Your task to perform on an android device: Empty the shopping cart on bestbuy. Add logitech g pro to the cart on bestbuy, then select checkout. Image 0: 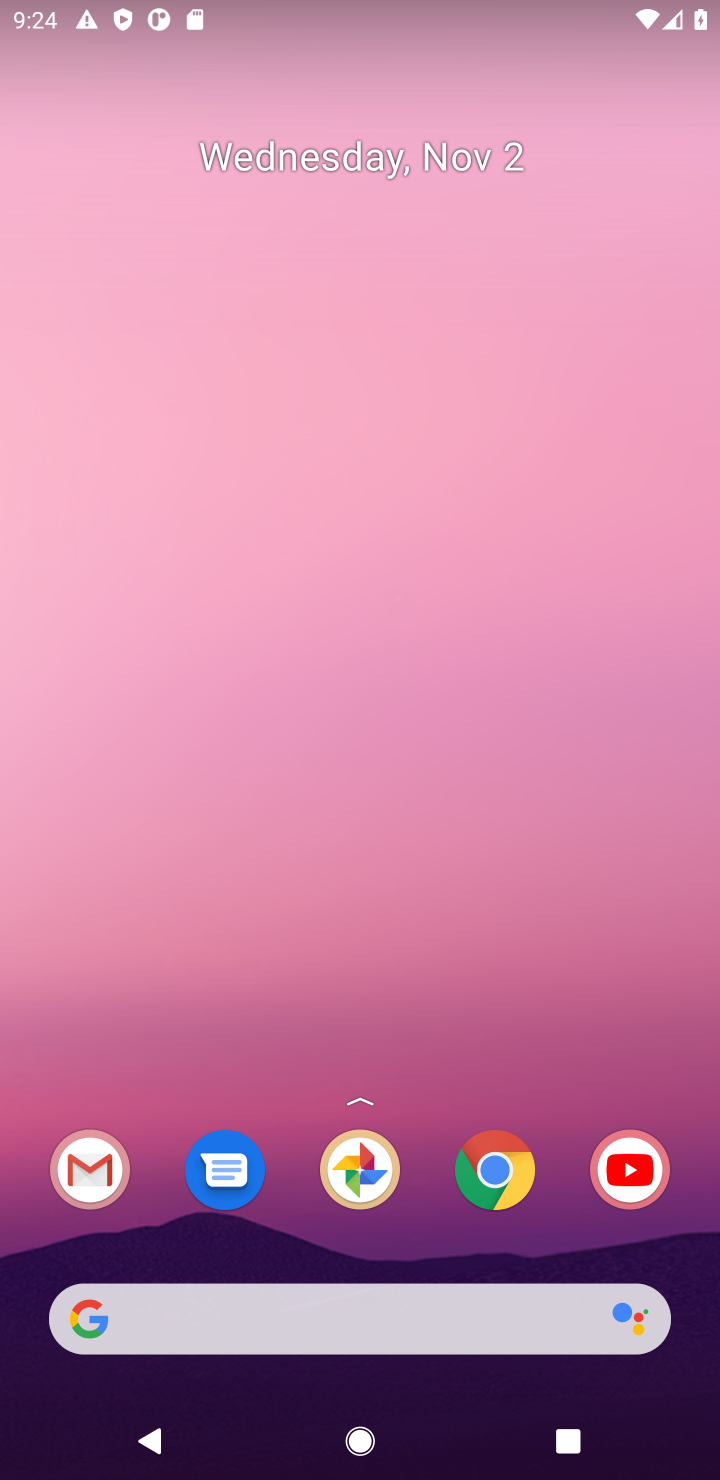
Step 0: click (521, 1170)
Your task to perform on an android device: Empty the shopping cart on bestbuy. Add logitech g pro to the cart on bestbuy, then select checkout. Image 1: 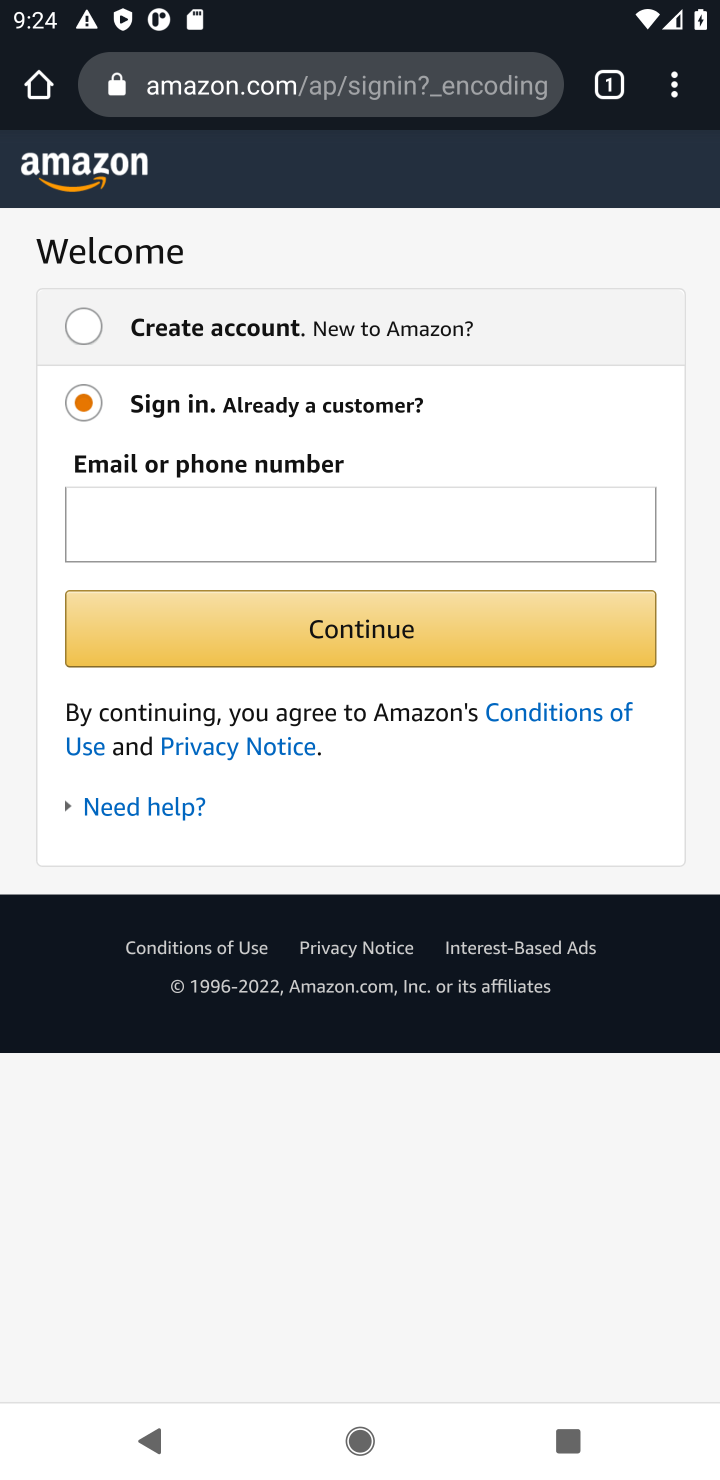
Step 1: press home button
Your task to perform on an android device: Empty the shopping cart on bestbuy. Add logitech g pro to the cart on bestbuy, then select checkout. Image 2: 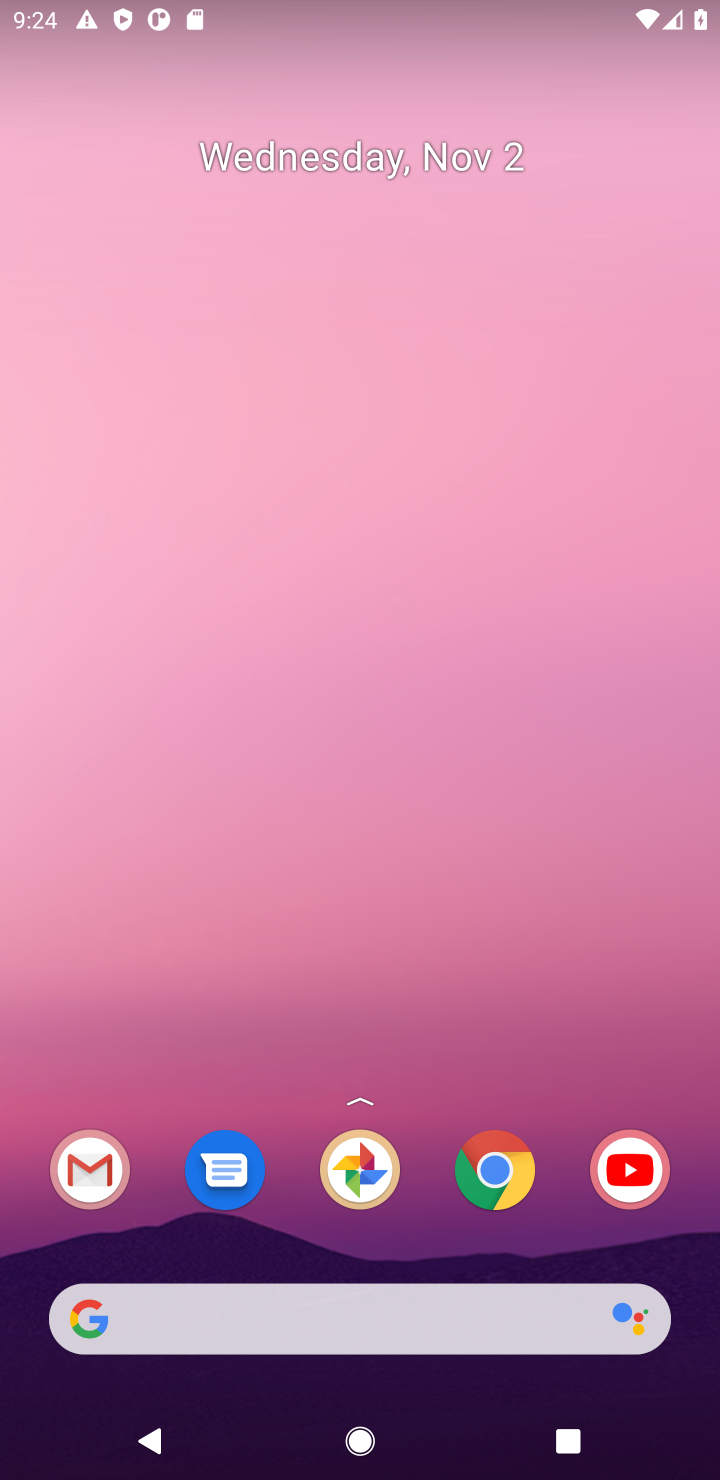
Step 2: click (483, 1197)
Your task to perform on an android device: Empty the shopping cart on bestbuy. Add logitech g pro to the cart on bestbuy, then select checkout. Image 3: 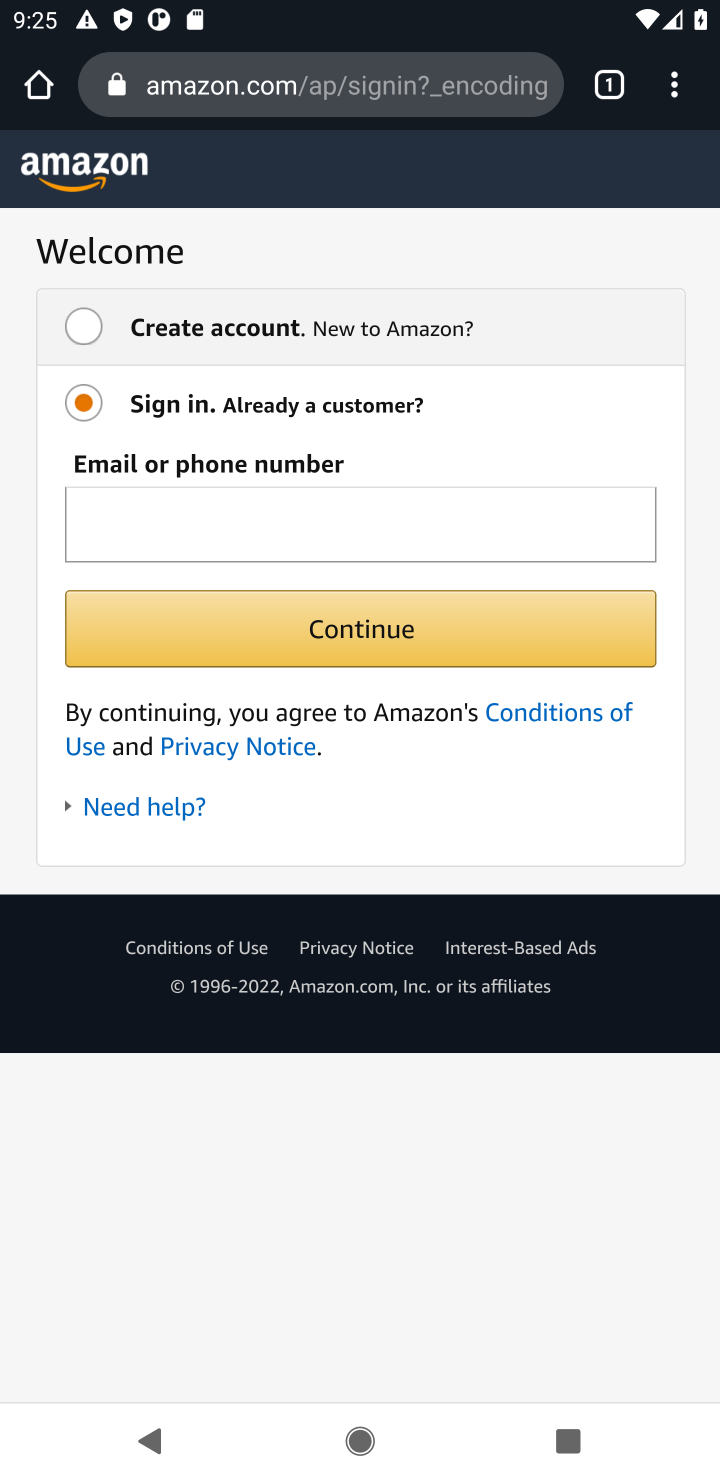
Step 3: click (258, 88)
Your task to perform on an android device: Empty the shopping cart on bestbuy. Add logitech g pro to the cart on bestbuy, then select checkout. Image 4: 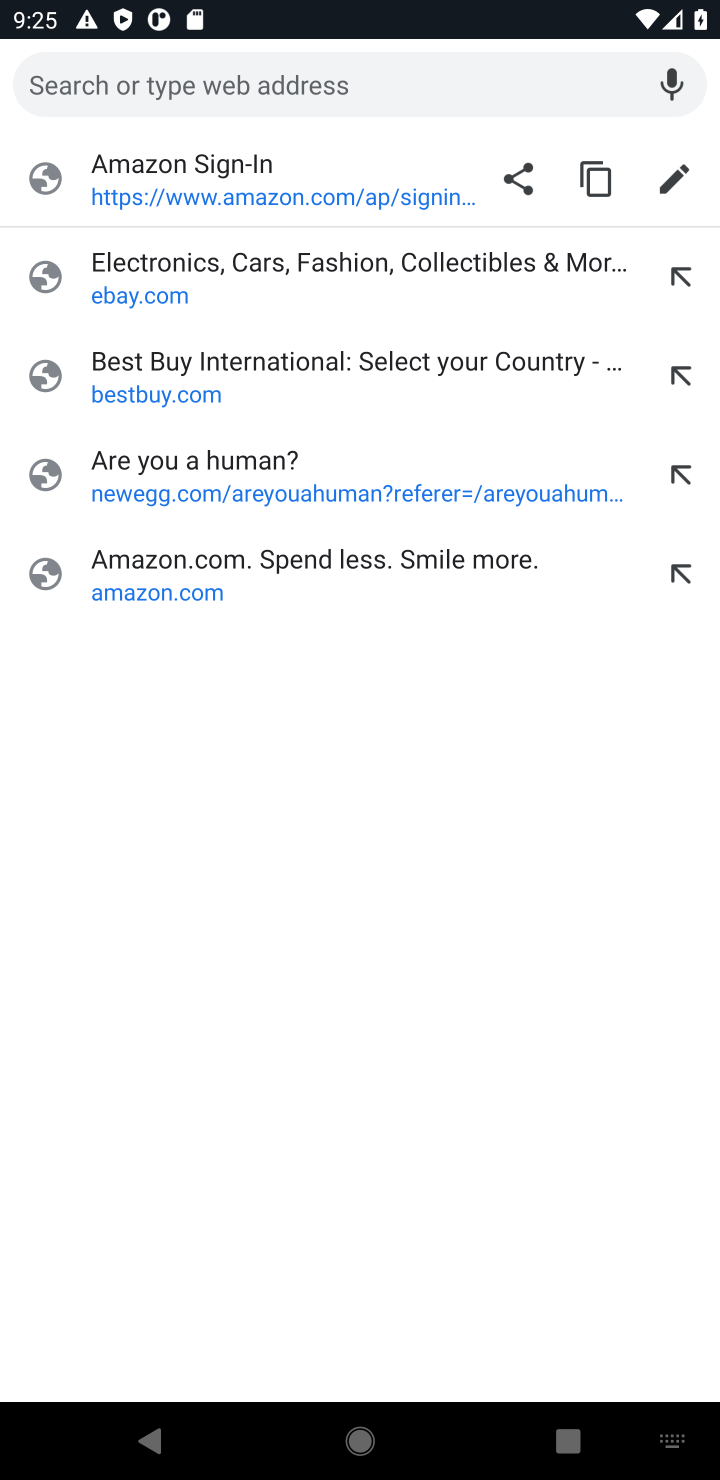
Step 4: type "bestbuy"
Your task to perform on an android device: Empty the shopping cart on bestbuy. Add logitech g pro to the cart on bestbuy, then select checkout. Image 5: 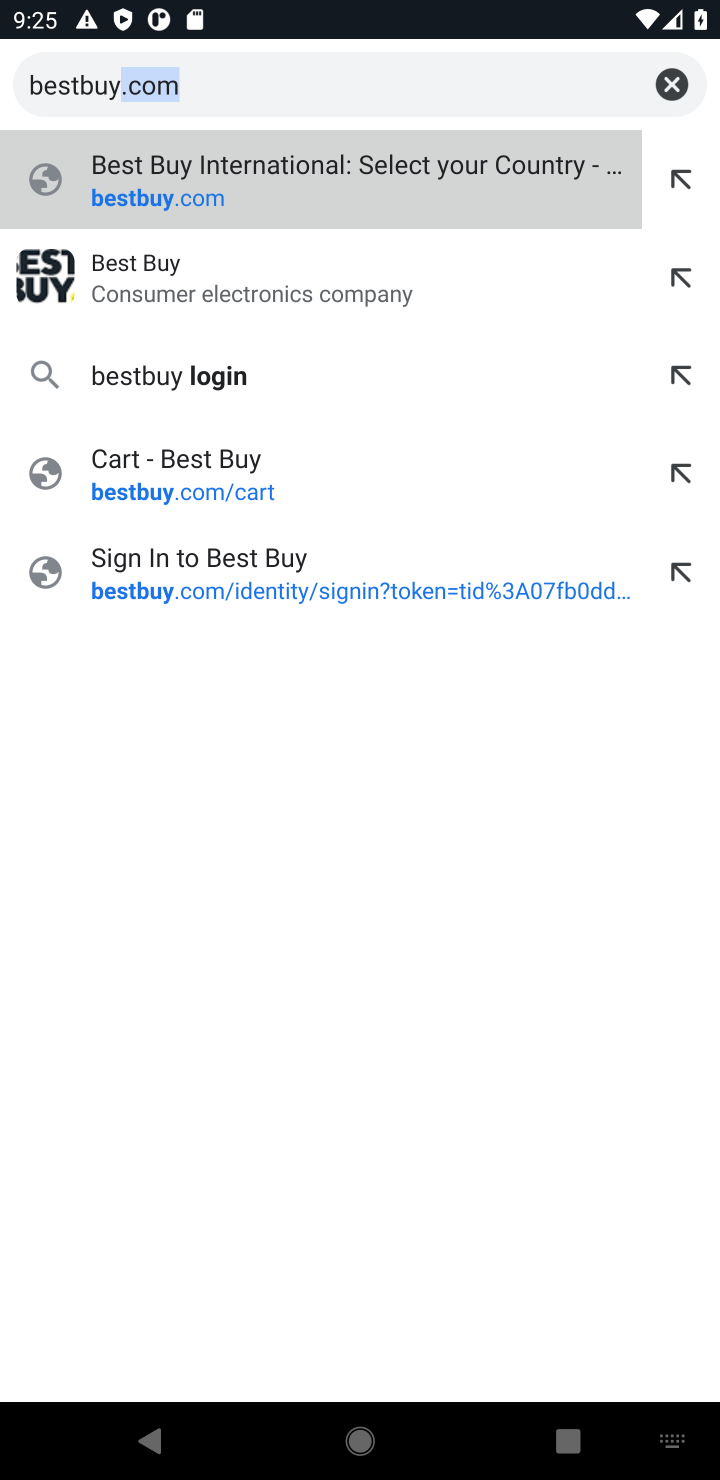
Step 5: press enter
Your task to perform on an android device: Empty the shopping cart on bestbuy. Add logitech g pro to the cart on bestbuy, then select checkout. Image 6: 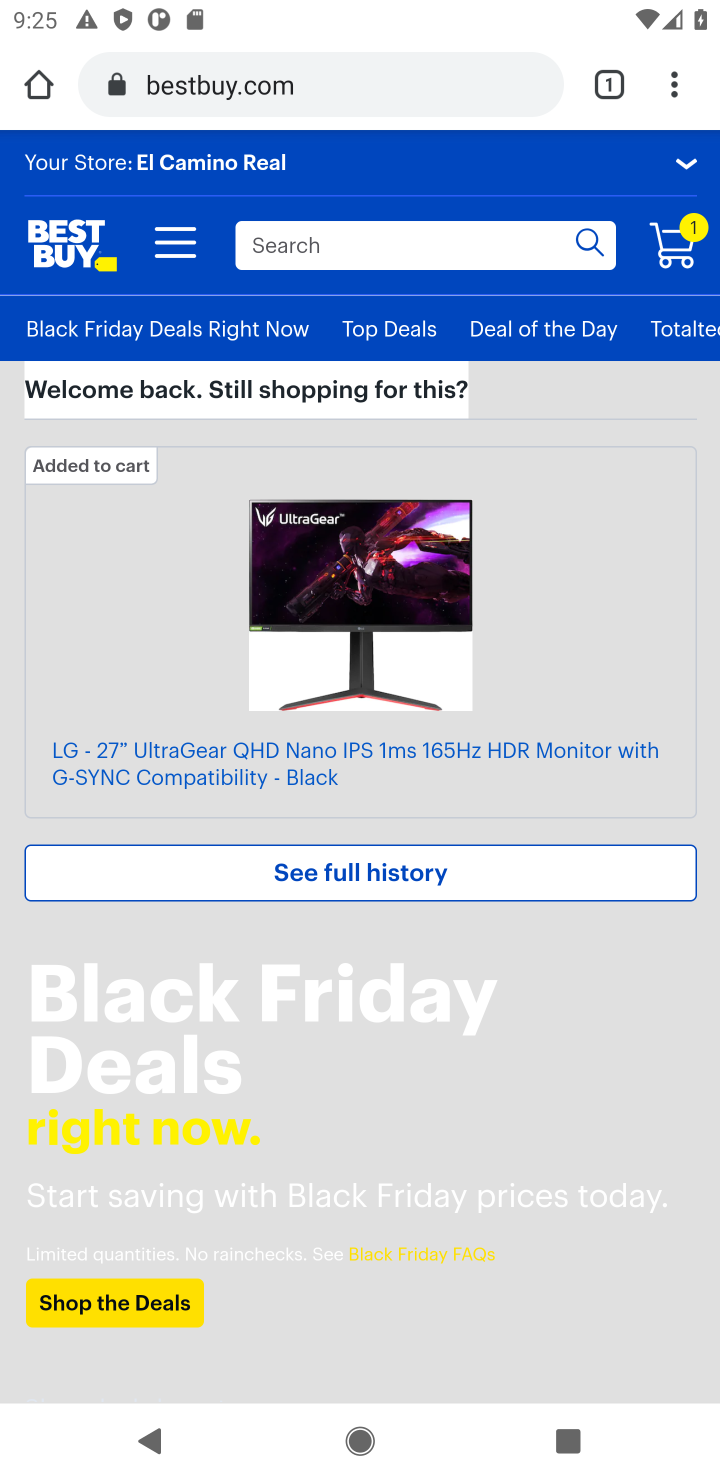
Step 6: click (445, 256)
Your task to perform on an android device: Empty the shopping cart on bestbuy. Add logitech g pro to the cart on bestbuy, then select checkout. Image 7: 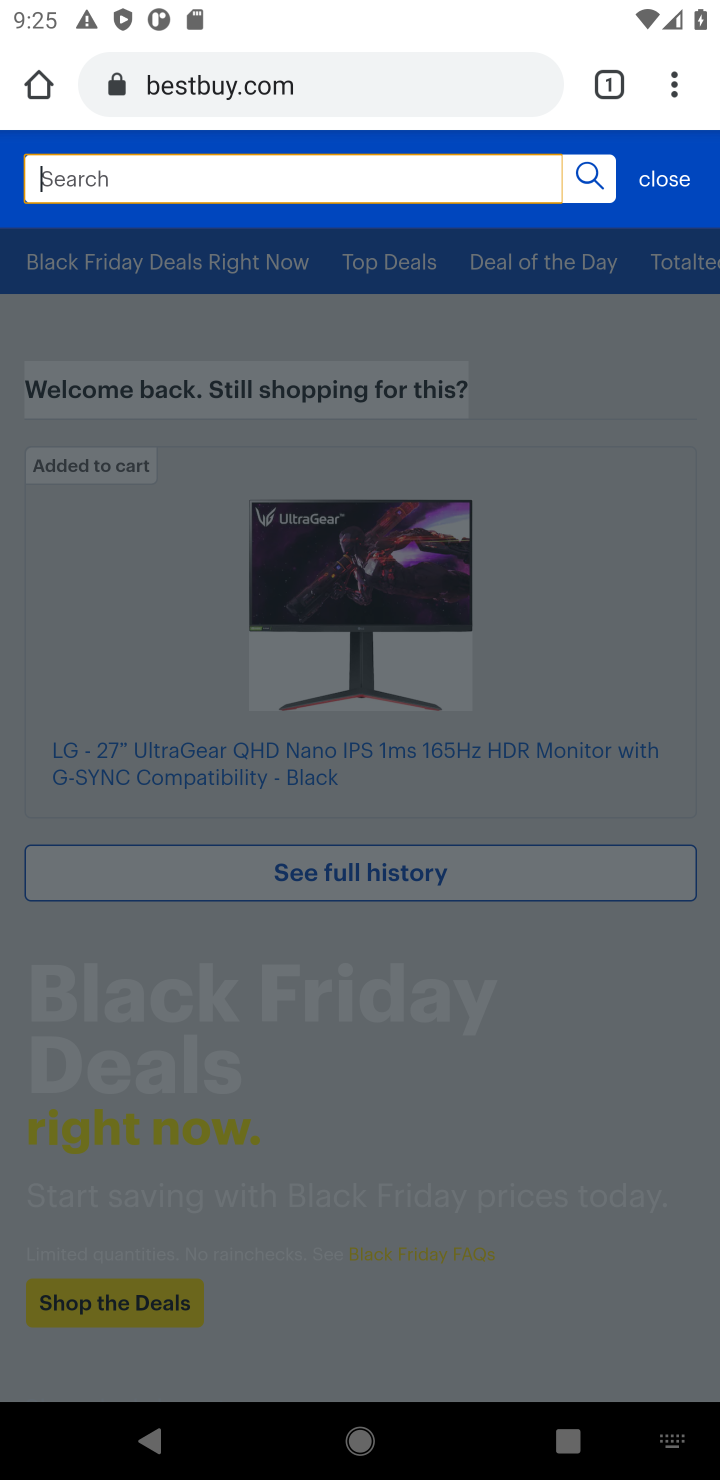
Step 7: click (675, 191)
Your task to perform on an android device: Empty the shopping cart on bestbuy. Add logitech g pro to the cart on bestbuy, then select checkout. Image 8: 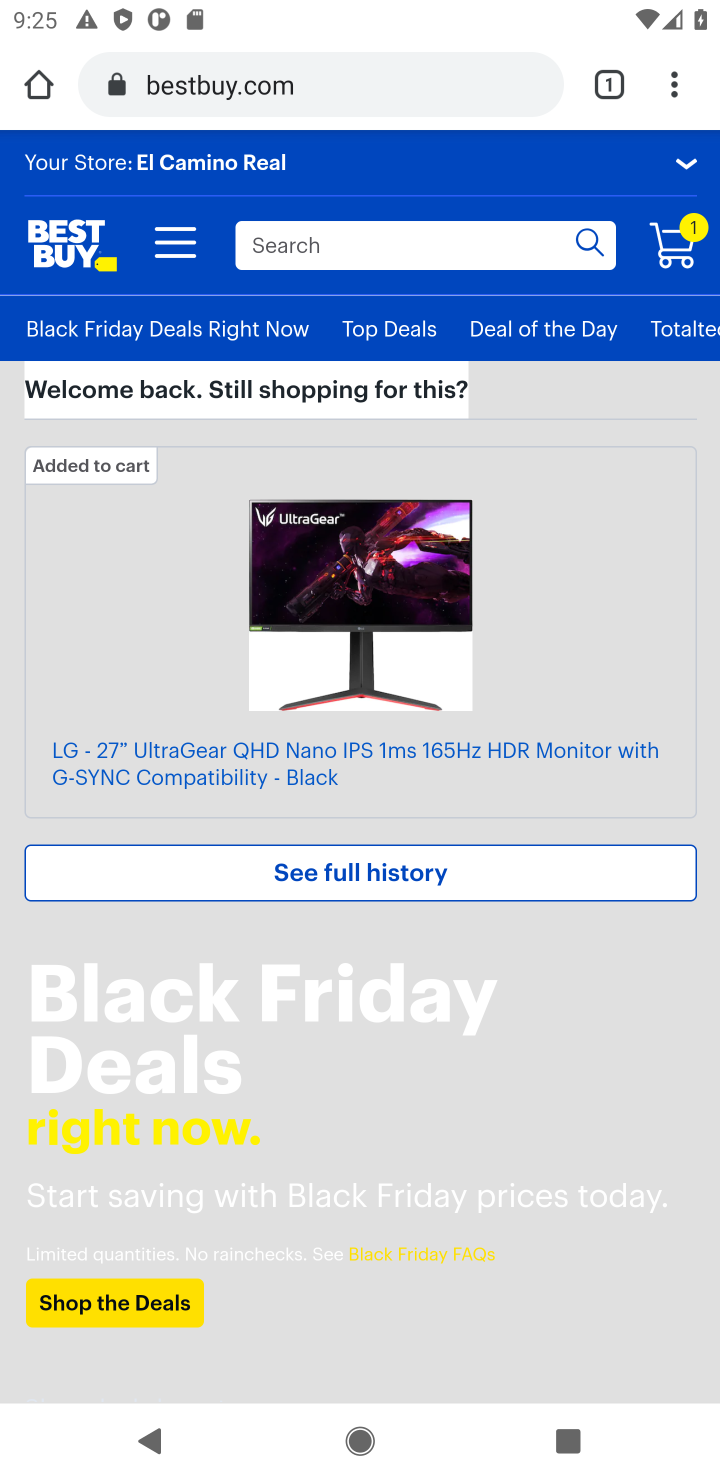
Step 8: click (679, 252)
Your task to perform on an android device: Empty the shopping cart on bestbuy. Add logitech g pro to the cart on bestbuy, then select checkout. Image 9: 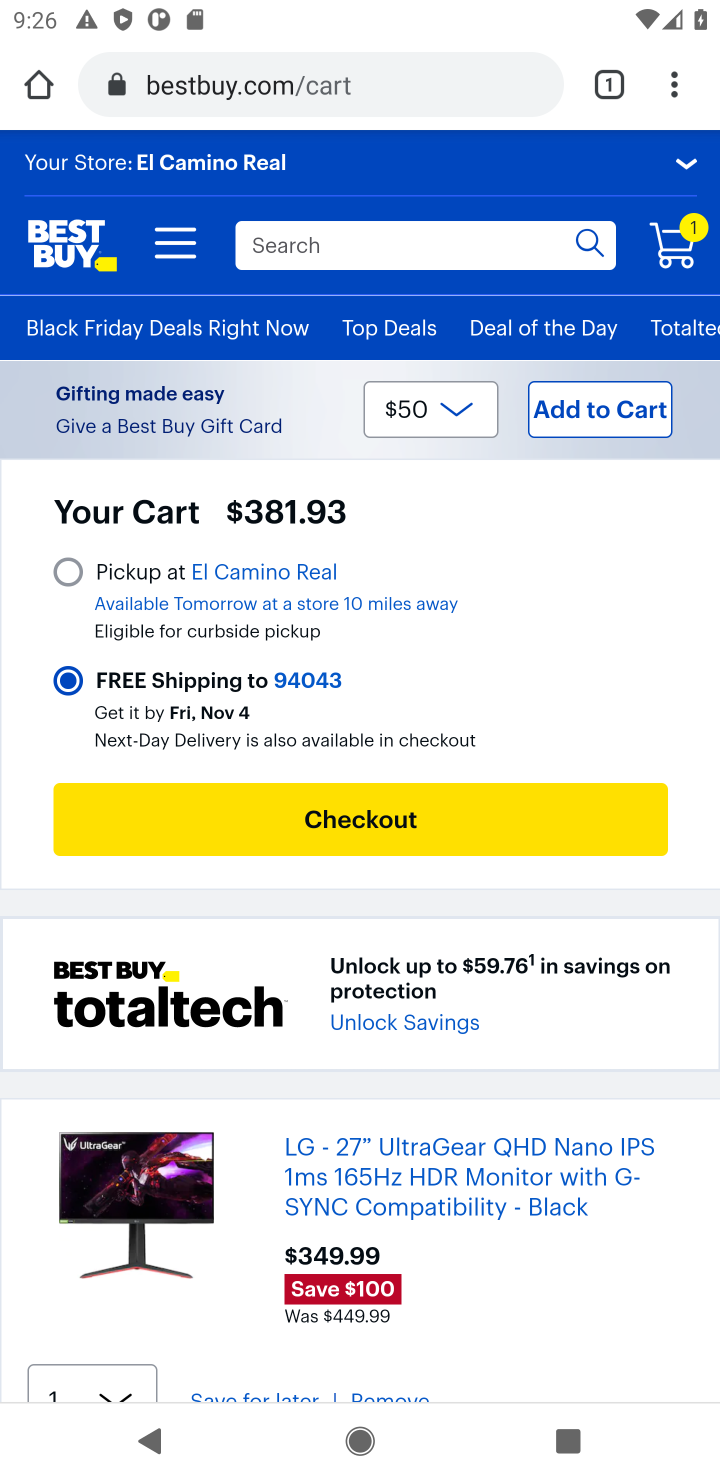
Step 9: drag from (288, 1215) to (296, 688)
Your task to perform on an android device: Empty the shopping cart on bestbuy. Add logitech g pro to the cart on bestbuy, then select checkout. Image 10: 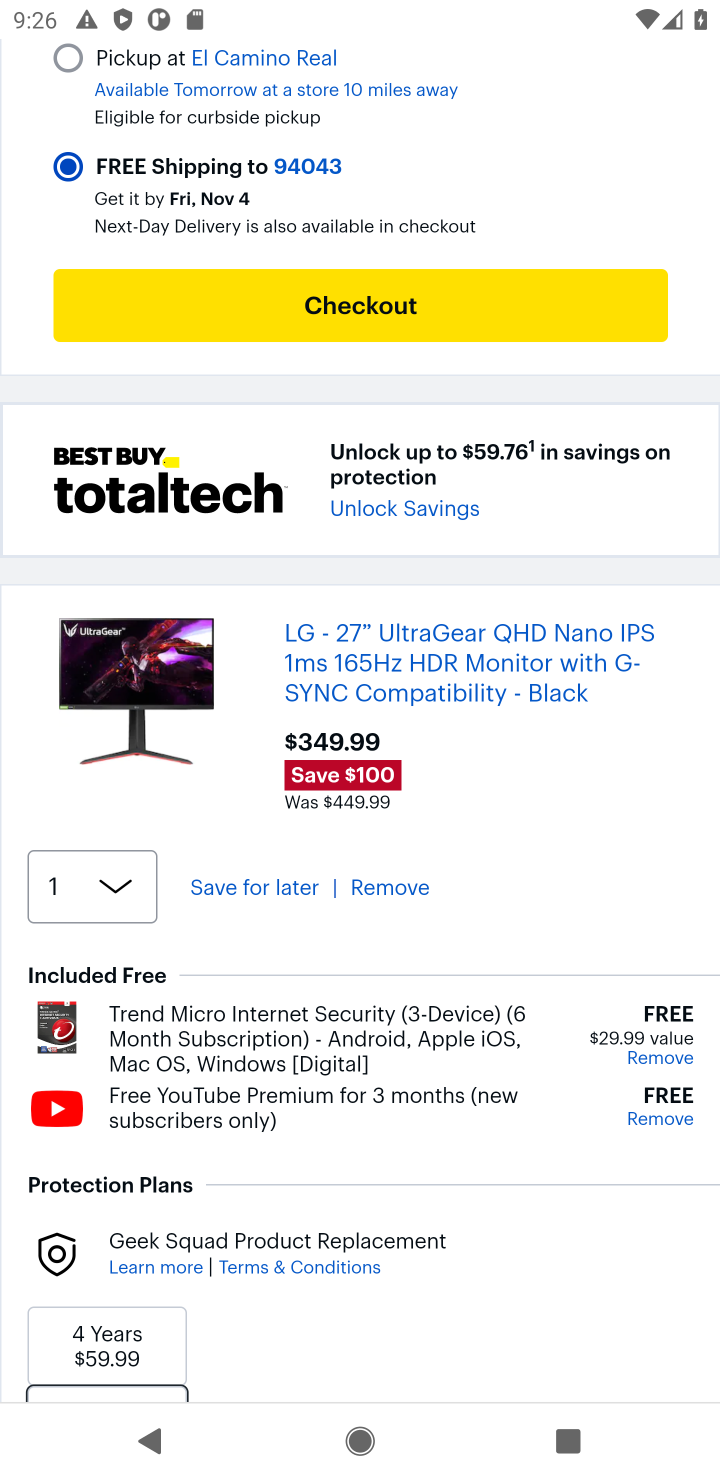
Step 10: click (395, 886)
Your task to perform on an android device: Empty the shopping cart on bestbuy. Add logitech g pro to the cart on bestbuy, then select checkout. Image 11: 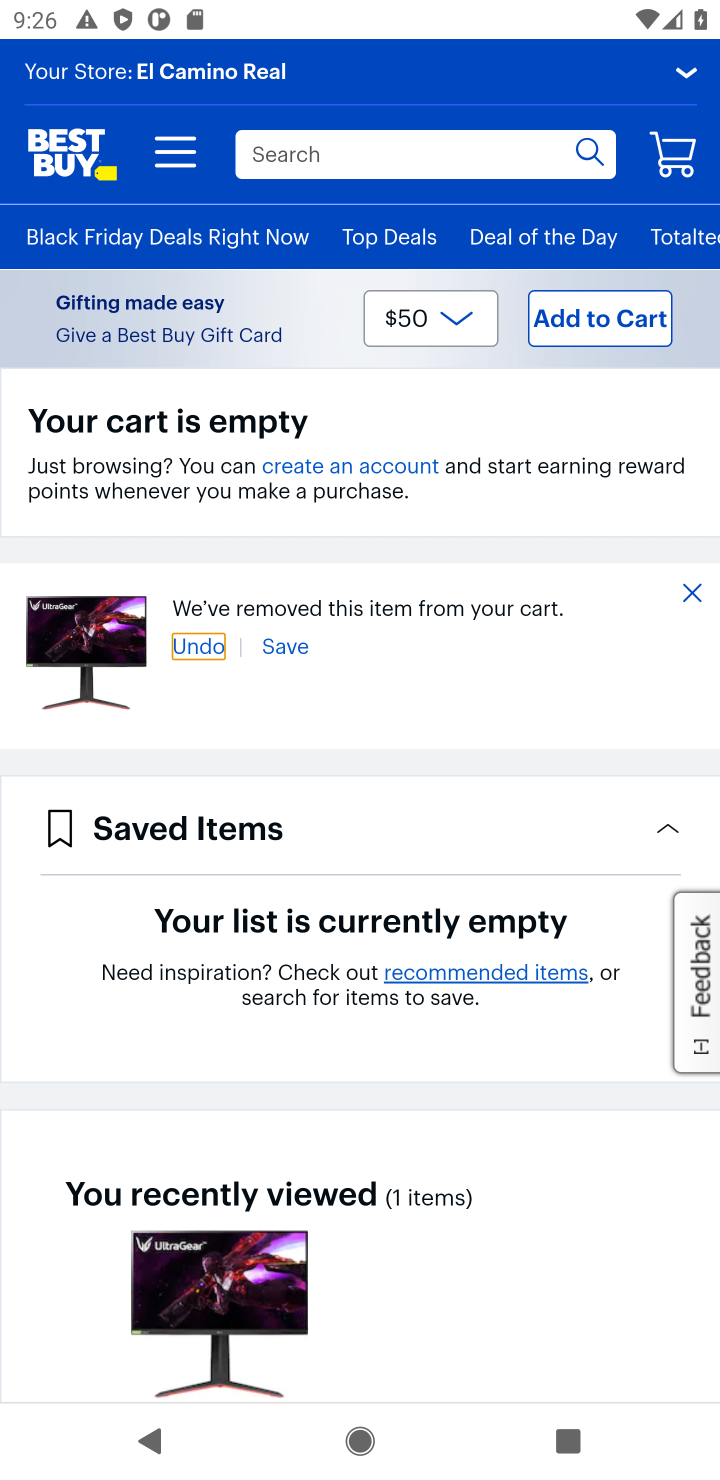
Step 11: click (494, 1202)
Your task to perform on an android device: Empty the shopping cart on bestbuy. Add logitech g pro to the cart on bestbuy, then select checkout. Image 12: 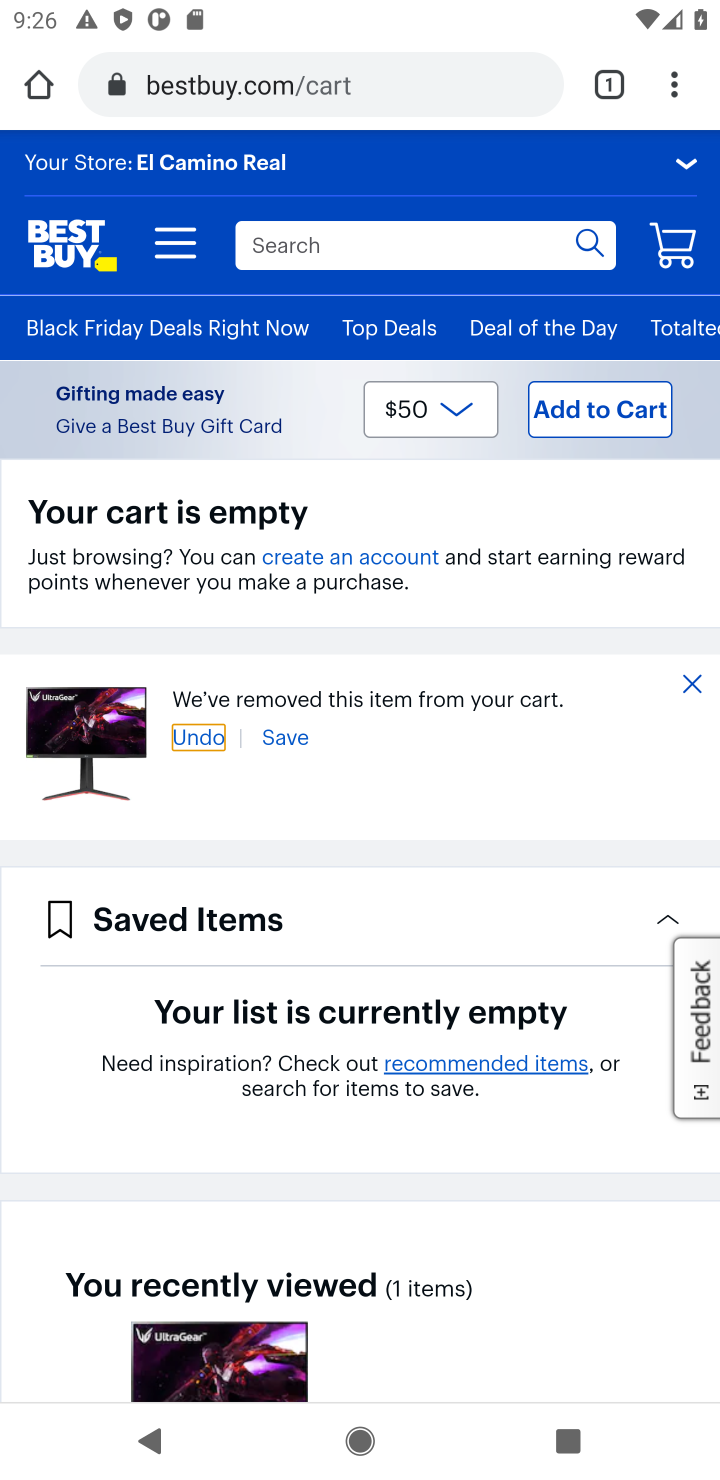
Step 12: drag from (231, 1027) to (314, 536)
Your task to perform on an android device: Empty the shopping cart on bestbuy. Add logitech g pro to the cart on bestbuy, then select checkout. Image 13: 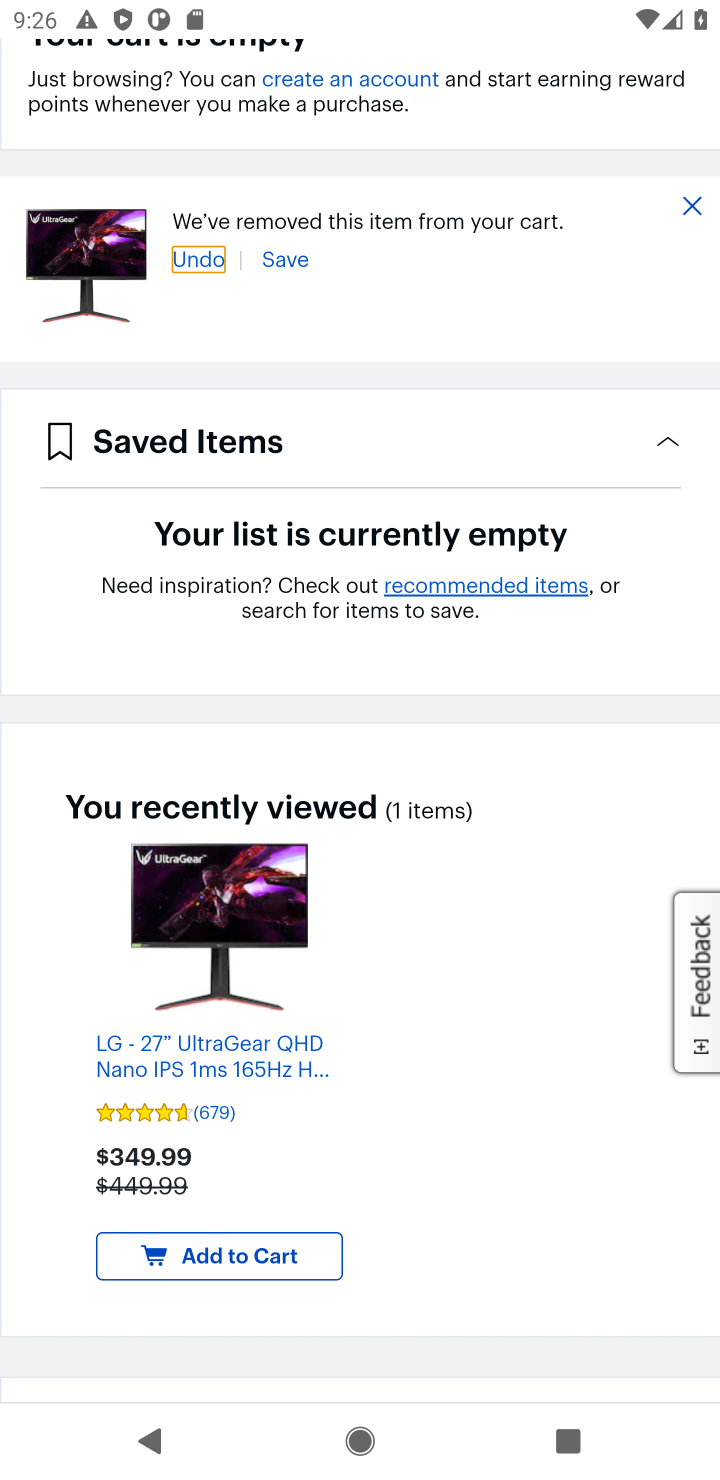
Step 13: drag from (512, 717) to (532, 1044)
Your task to perform on an android device: Empty the shopping cart on bestbuy. Add logitech g pro to the cart on bestbuy, then select checkout. Image 14: 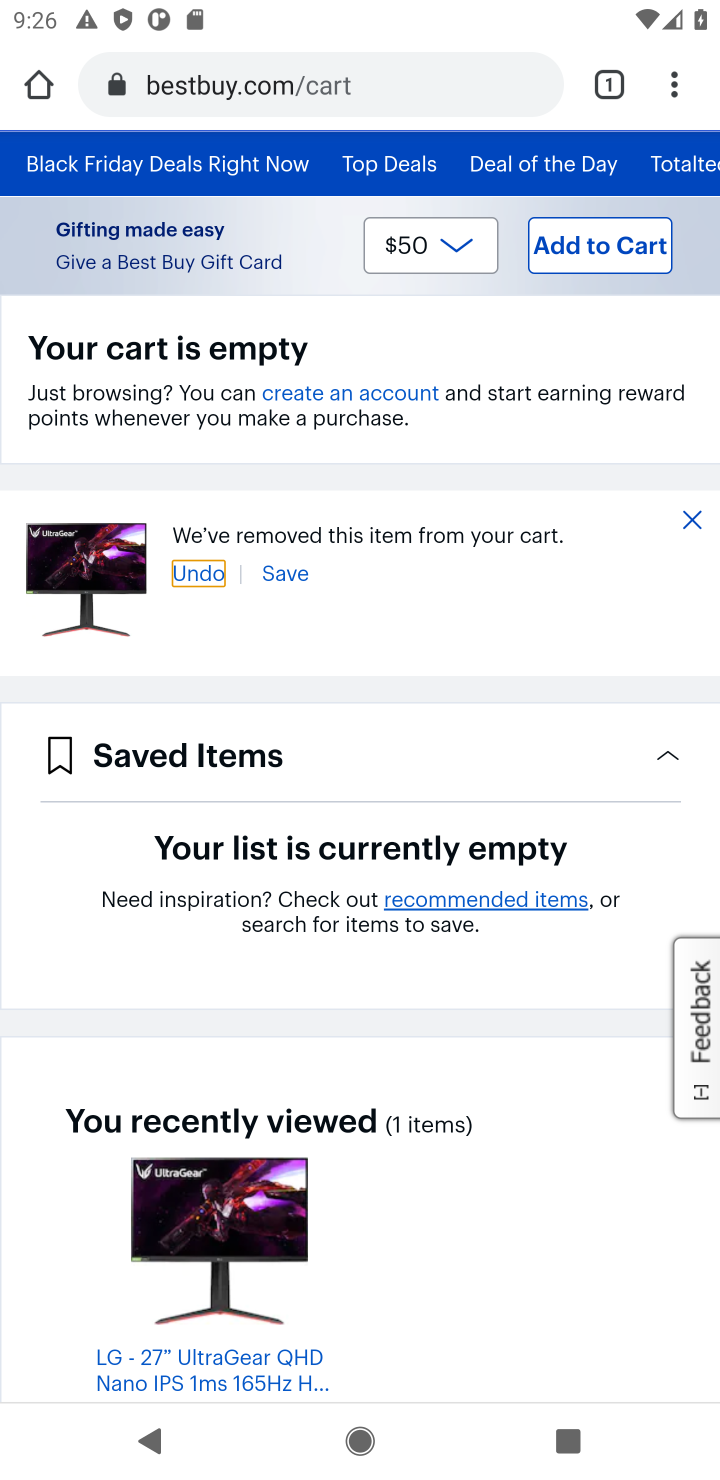
Step 14: drag from (461, 466) to (593, 225)
Your task to perform on an android device: Empty the shopping cart on bestbuy. Add logitech g pro to the cart on bestbuy, then select checkout. Image 15: 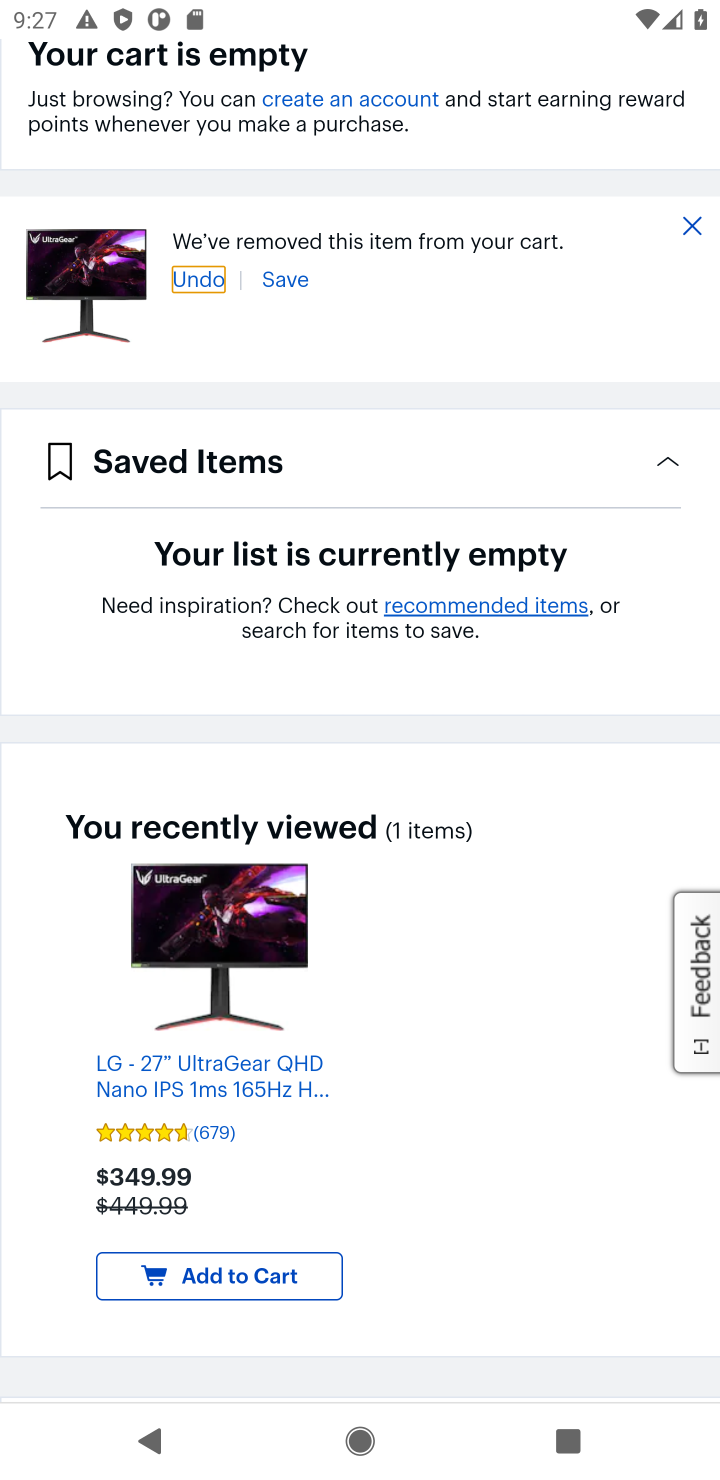
Step 15: drag from (483, 359) to (474, 883)
Your task to perform on an android device: Empty the shopping cart on bestbuy. Add logitech g pro to the cart on bestbuy, then select checkout. Image 16: 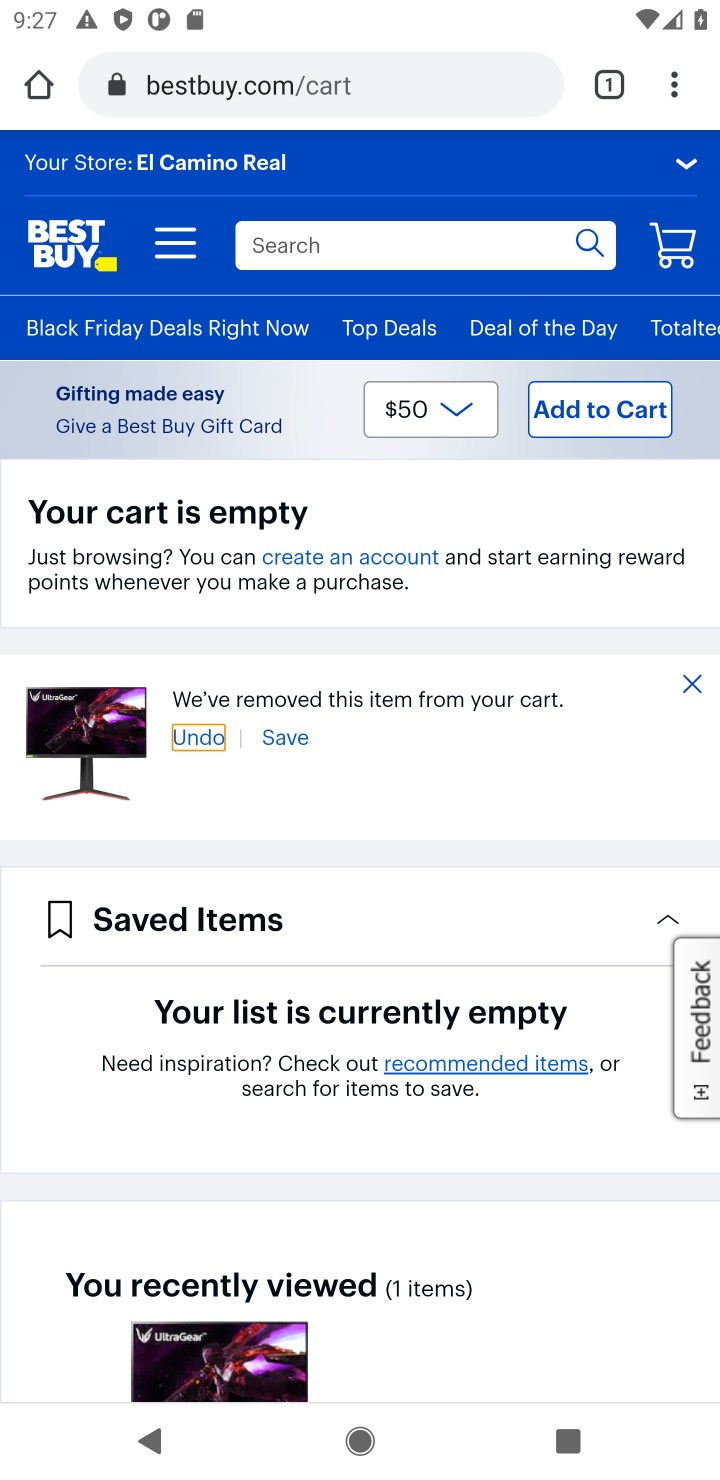
Step 16: click (382, 95)
Your task to perform on an android device: Empty the shopping cart on bestbuy. Add logitech g pro to the cart on bestbuy, then select checkout. Image 17: 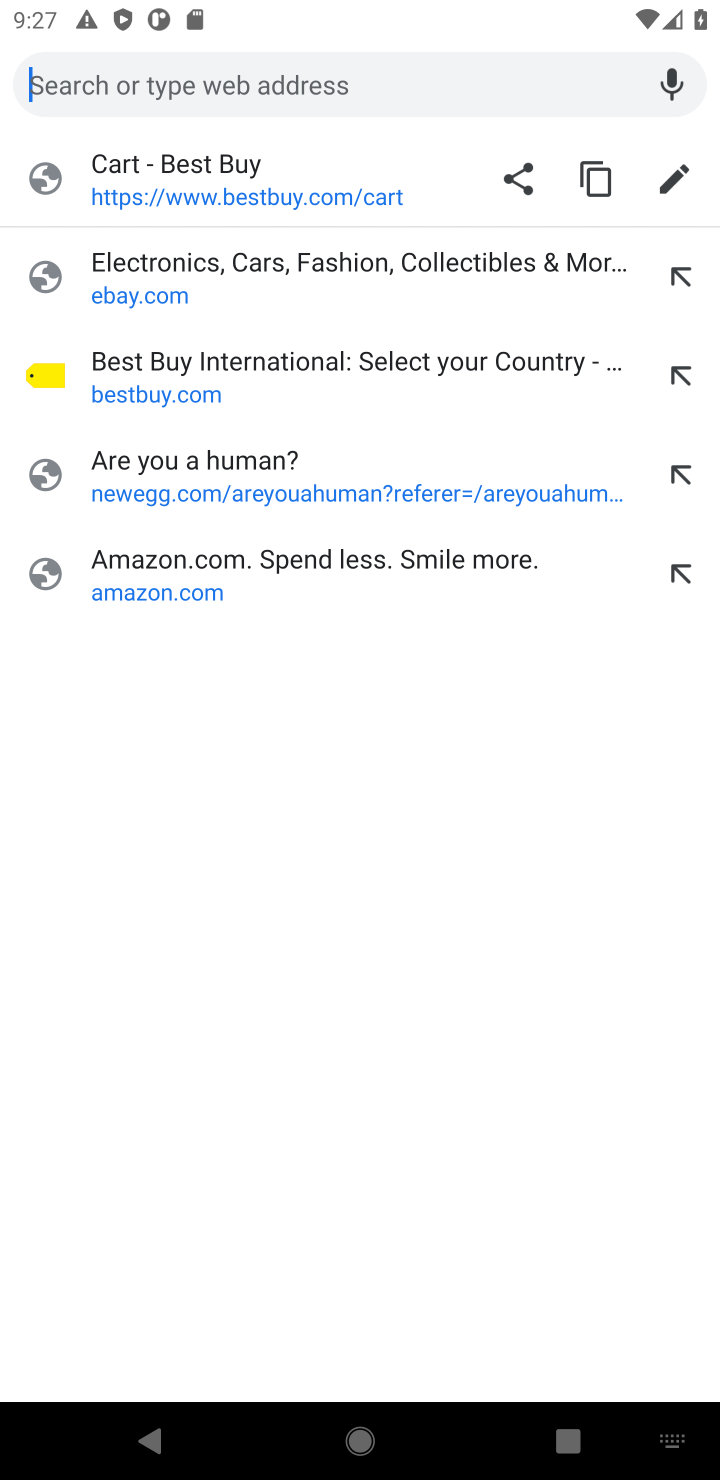
Step 17: type "logitech g pro"
Your task to perform on an android device: Empty the shopping cart on bestbuy. Add logitech g pro to the cart on bestbuy, then select checkout. Image 18: 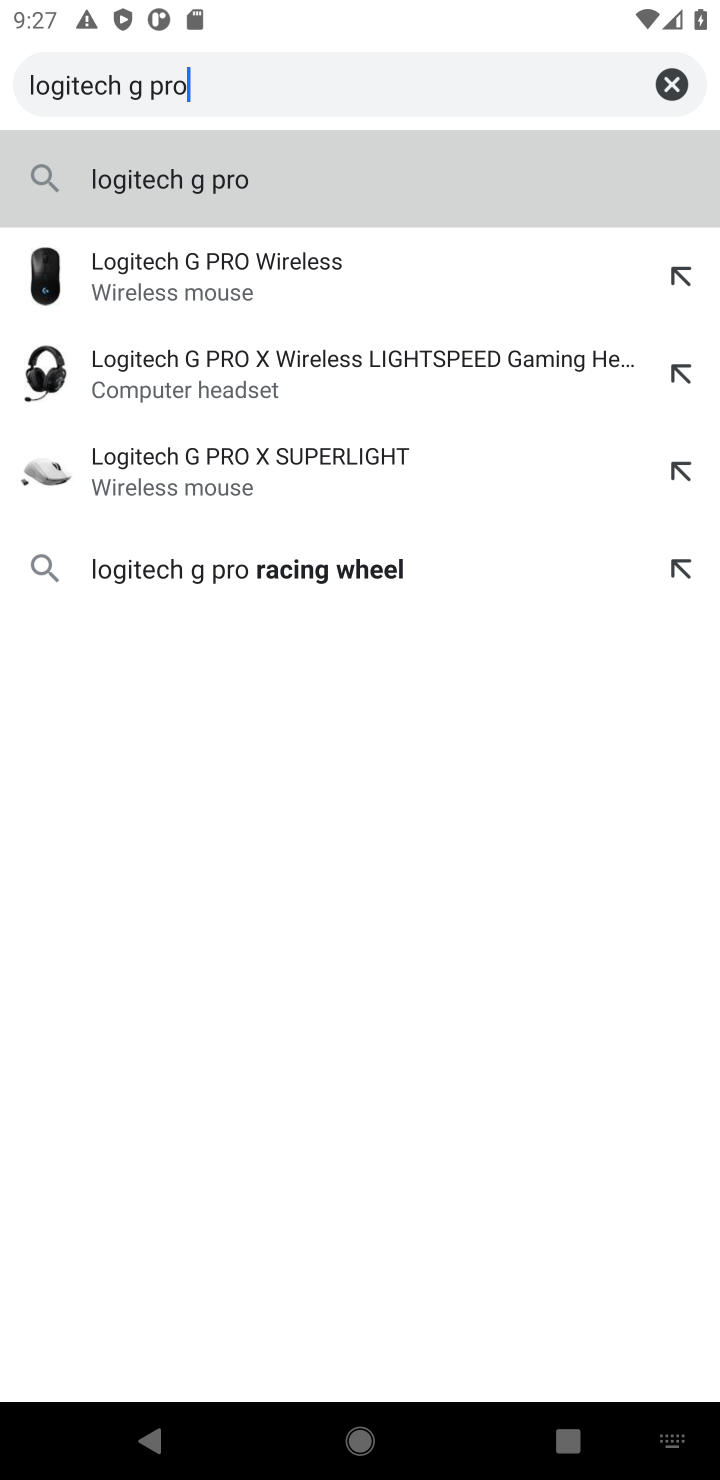
Step 18: click (674, 73)
Your task to perform on an android device: Empty the shopping cart on bestbuy. Add logitech g pro to the cart on bestbuy, then select checkout. Image 19: 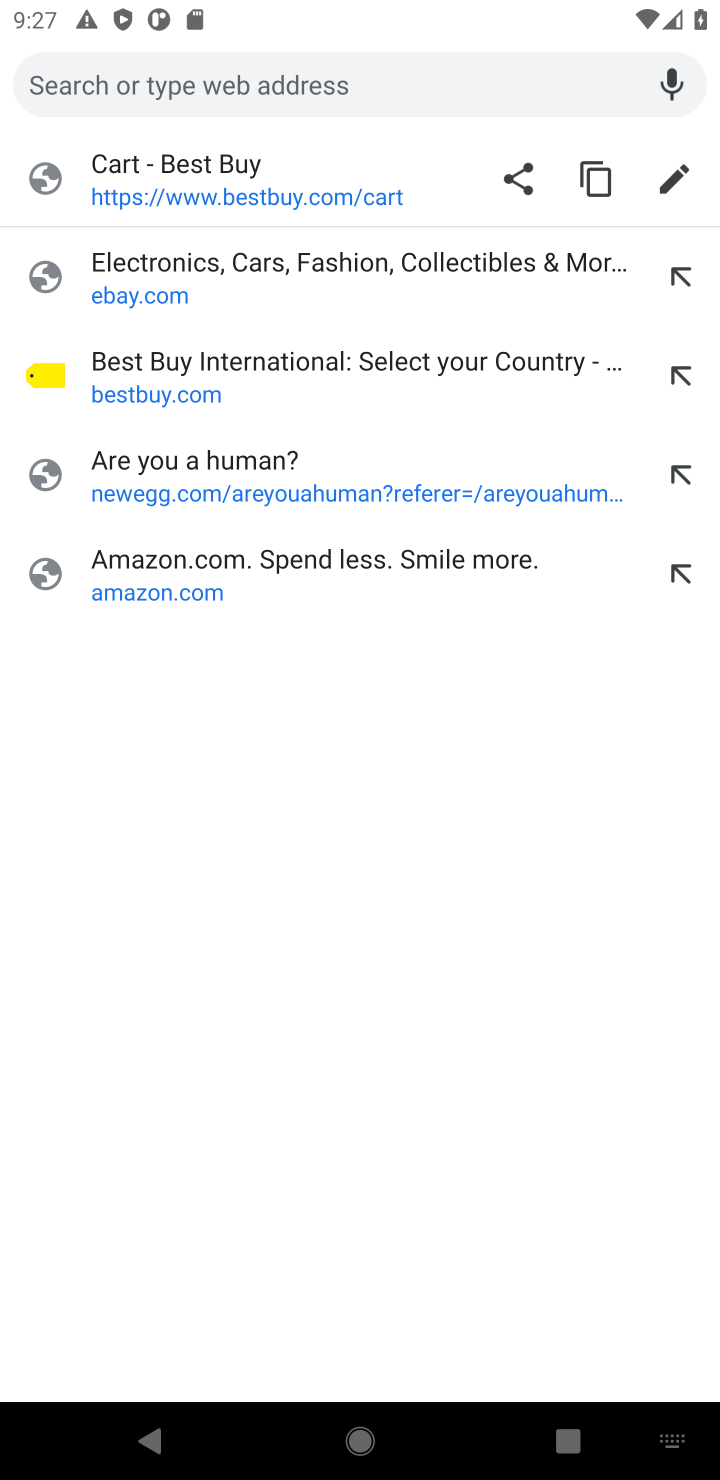
Step 19: type "bestbuy"
Your task to perform on an android device: Empty the shopping cart on bestbuy. Add logitech g pro to the cart on bestbuy, then select checkout. Image 20: 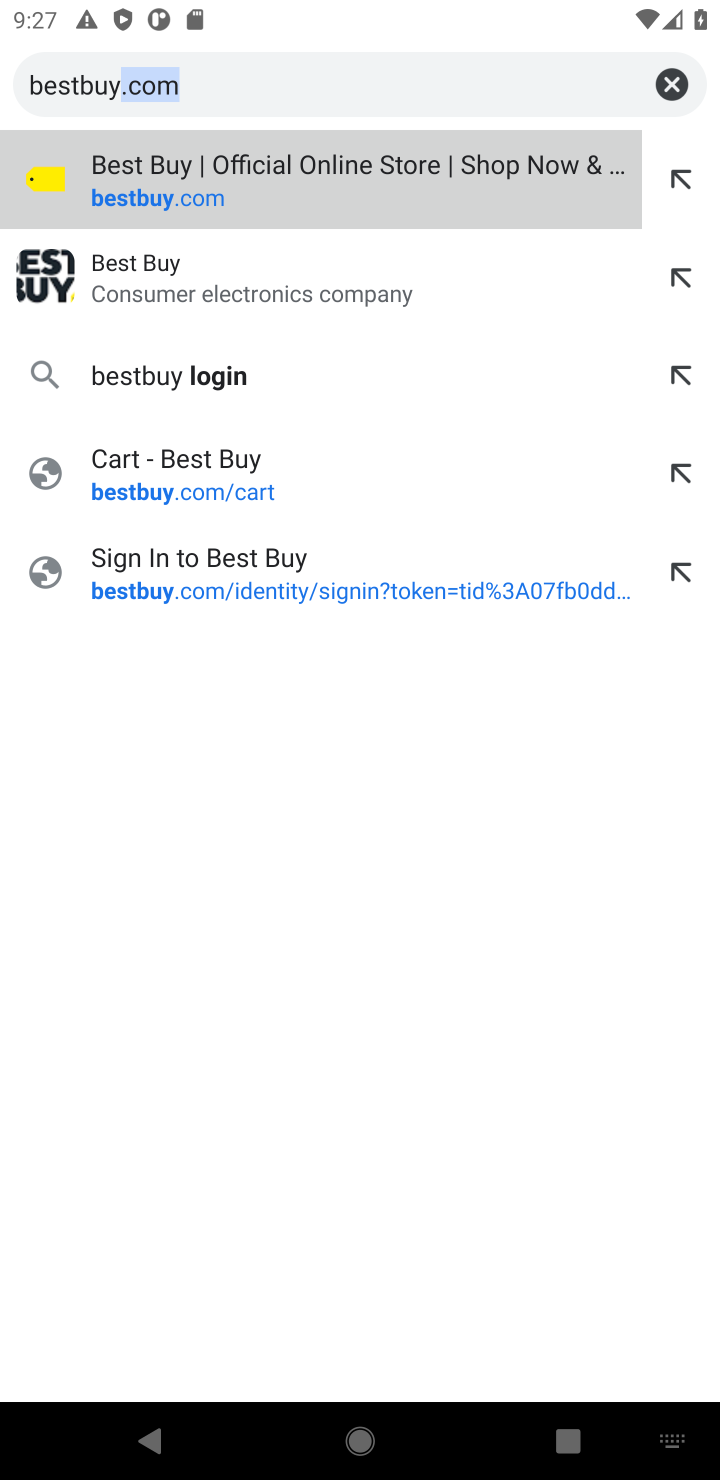
Step 20: type ""
Your task to perform on an android device: Empty the shopping cart on bestbuy. Add logitech g pro to the cart on bestbuy, then select checkout. Image 21: 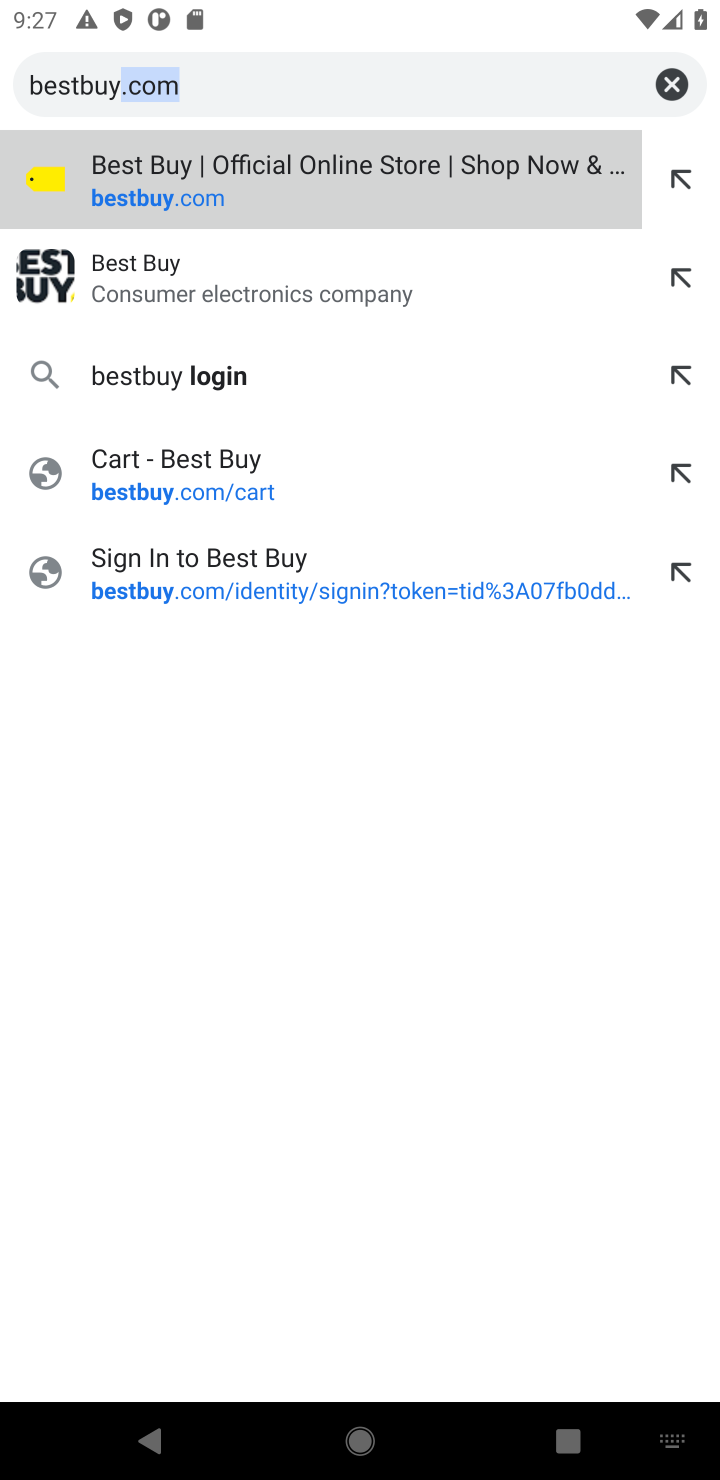
Step 21: press enter
Your task to perform on an android device: Empty the shopping cart on bestbuy. Add logitech g pro to the cart on bestbuy, then select checkout. Image 22: 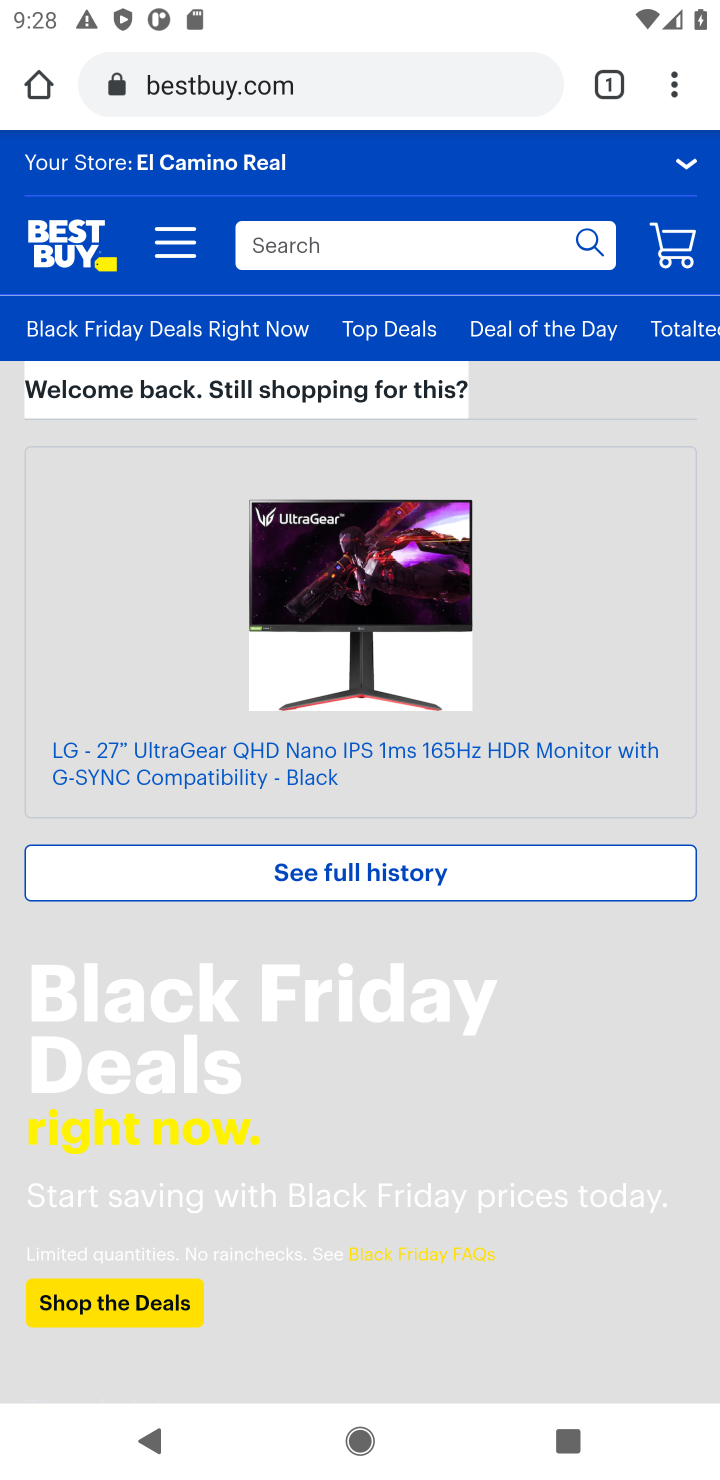
Step 22: click (338, 251)
Your task to perform on an android device: Empty the shopping cart on bestbuy. Add logitech g pro to the cart on bestbuy, then select checkout. Image 23: 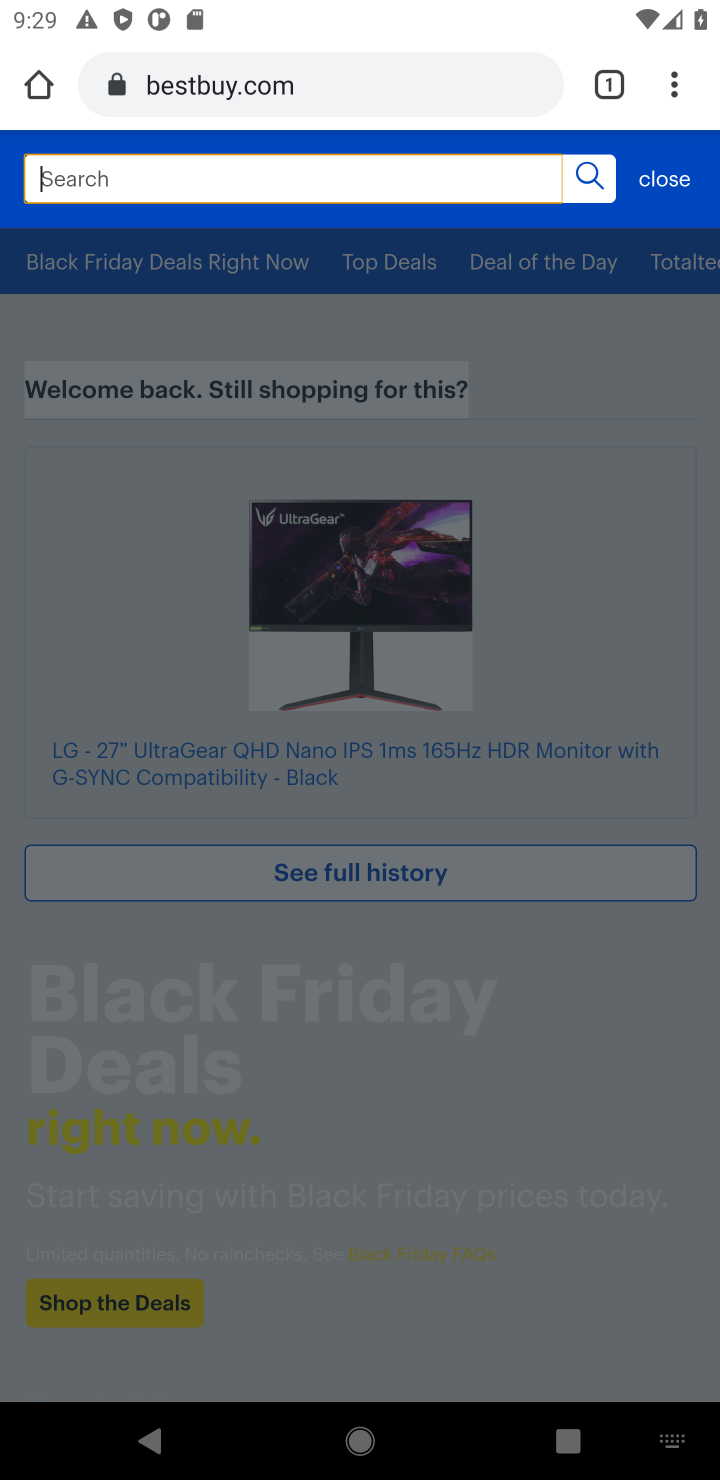
Step 23: type "logitech g pro"
Your task to perform on an android device: Empty the shopping cart on bestbuy. Add logitech g pro to the cart on bestbuy, then select checkout. Image 24: 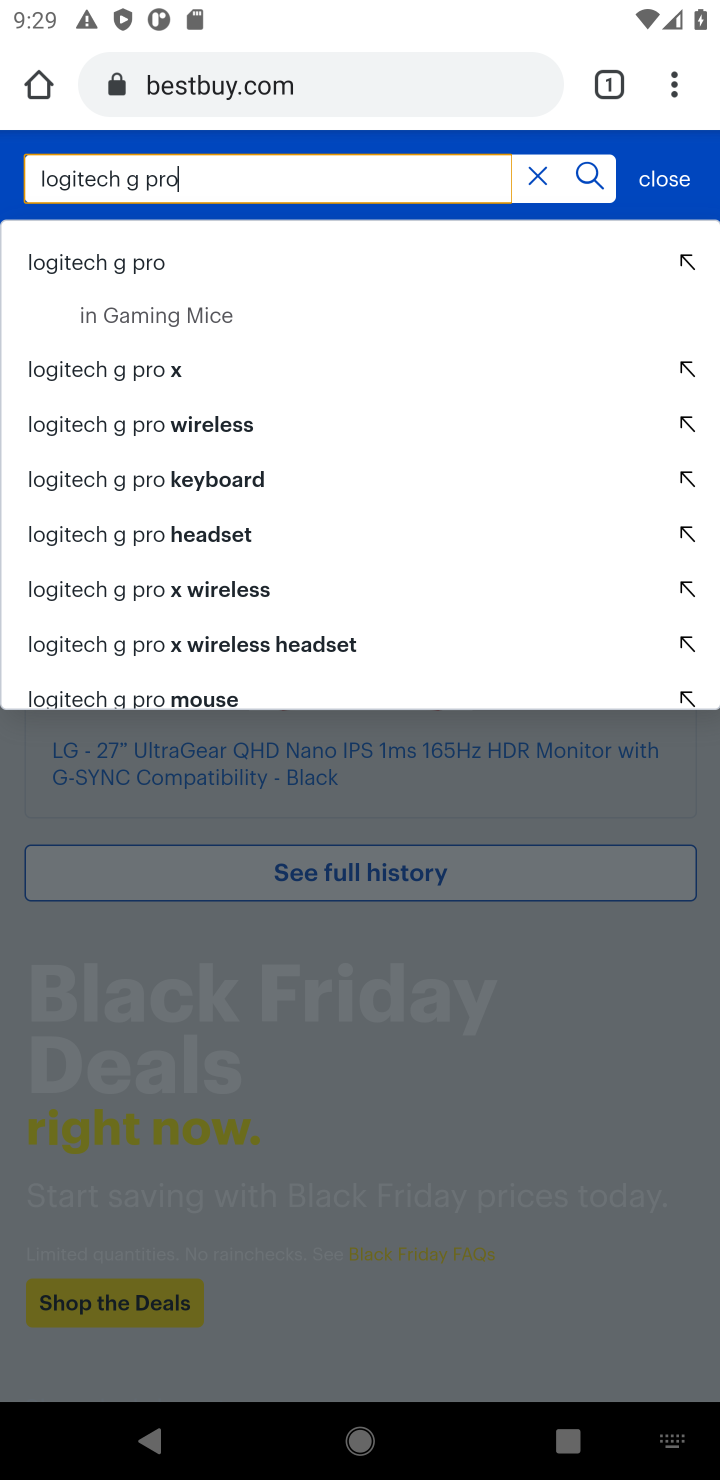
Step 24: press enter
Your task to perform on an android device: Empty the shopping cart on bestbuy. Add logitech g pro to the cart on bestbuy, then select checkout. Image 25: 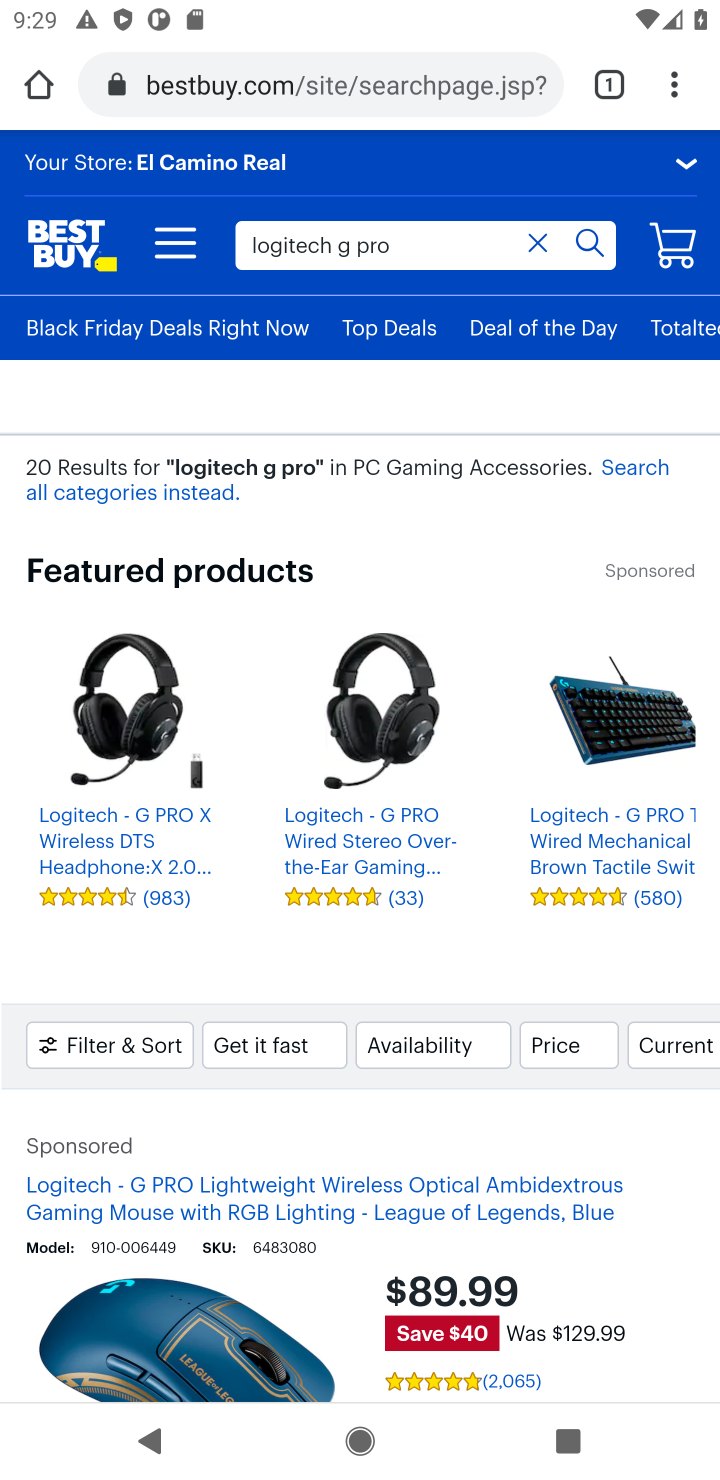
Step 25: drag from (523, 1089) to (544, 576)
Your task to perform on an android device: Empty the shopping cart on bestbuy. Add logitech g pro to the cart on bestbuy, then select checkout. Image 26: 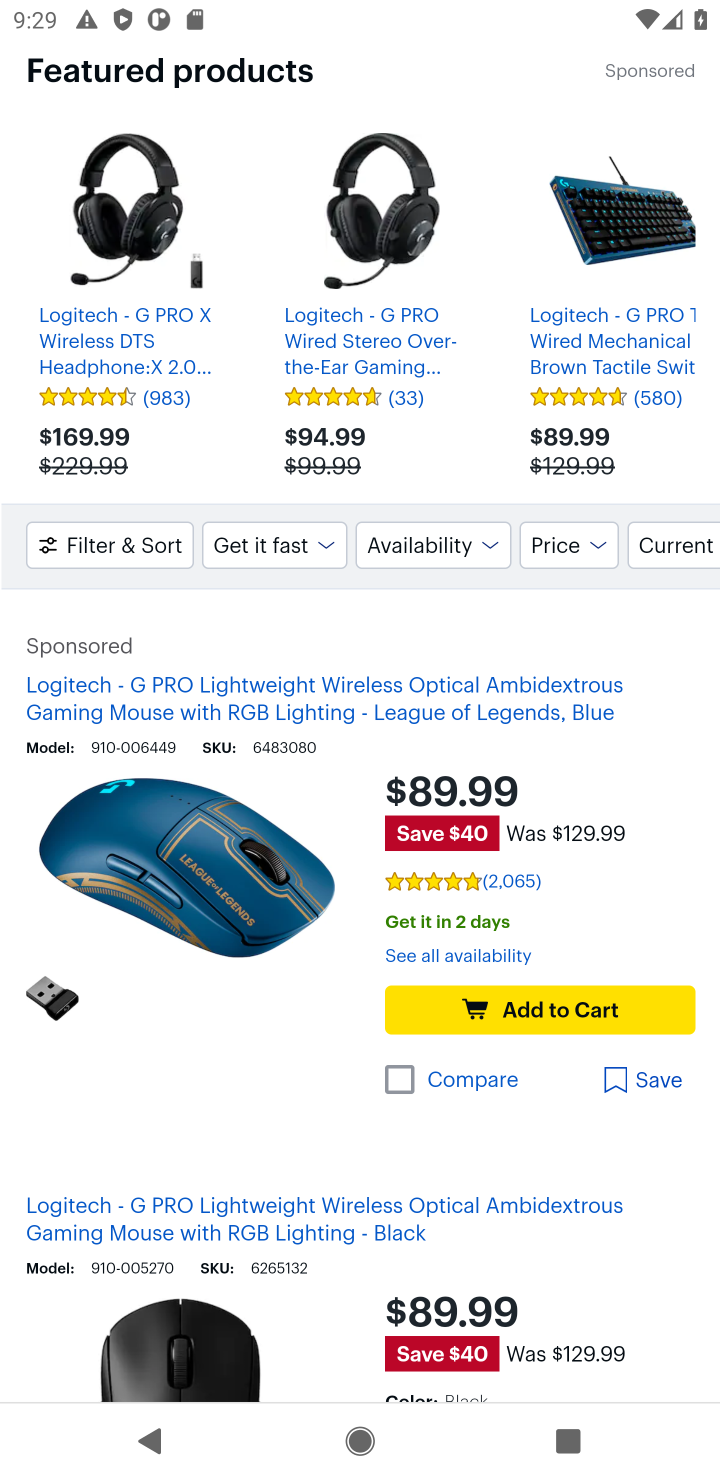
Step 26: click (403, 703)
Your task to perform on an android device: Empty the shopping cart on bestbuy. Add logitech g pro to the cart on bestbuy, then select checkout. Image 27: 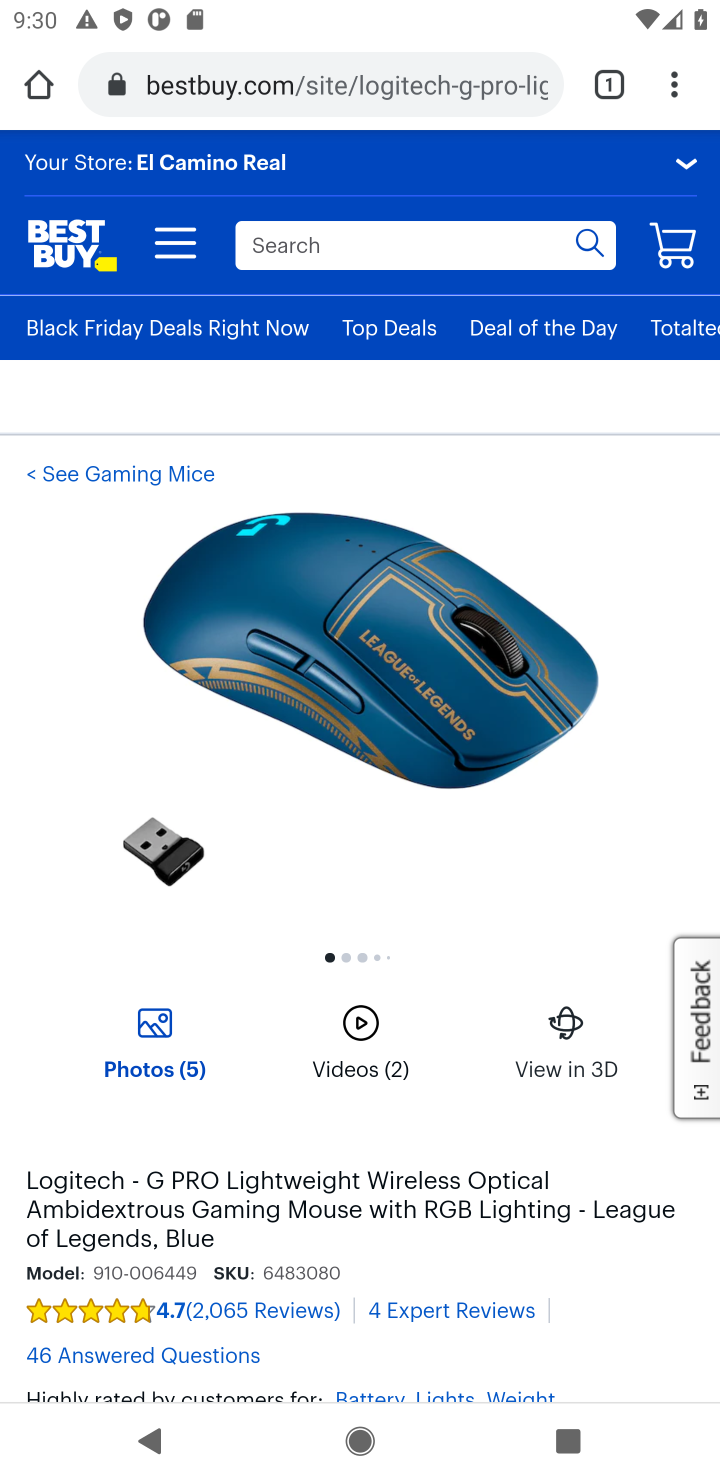
Step 27: drag from (425, 1200) to (490, 330)
Your task to perform on an android device: Empty the shopping cart on bestbuy. Add logitech g pro to the cart on bestbuy, then select checkout. Image 28: 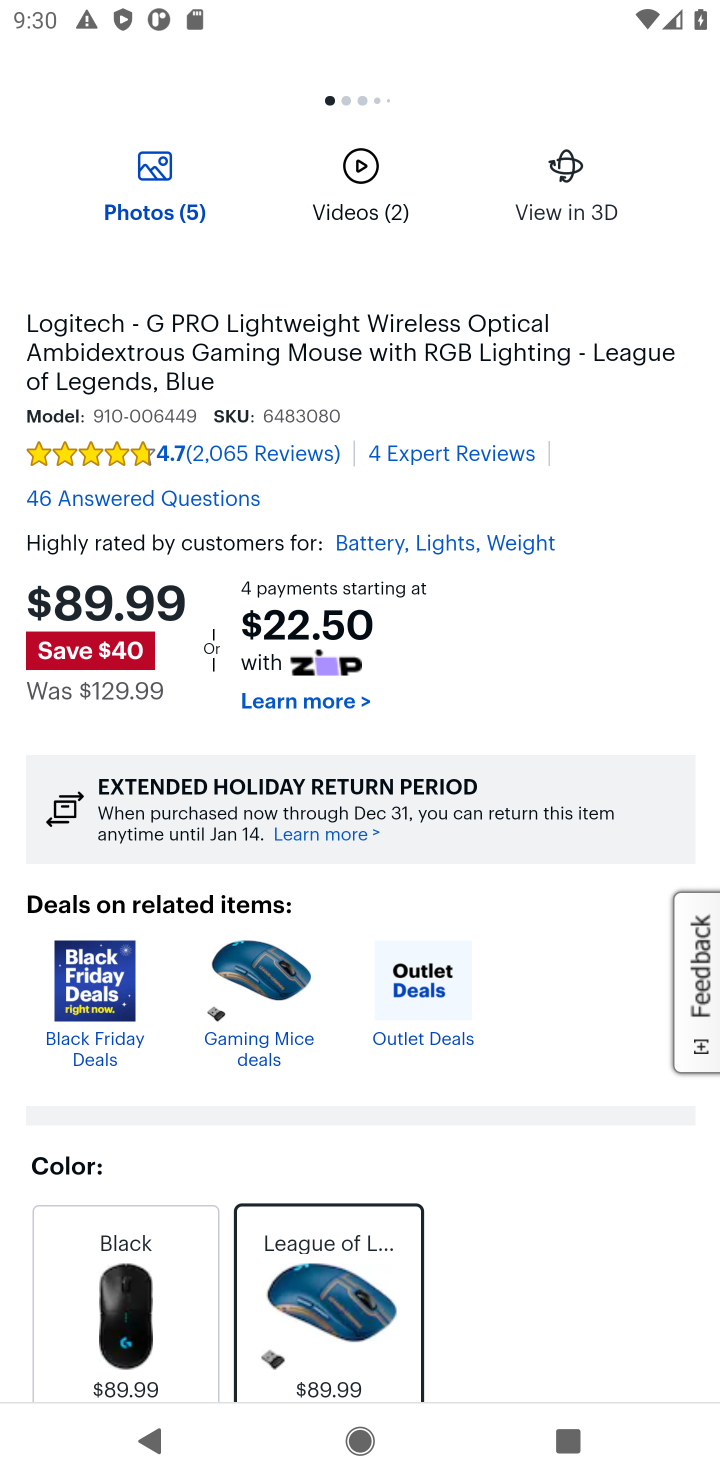
Step 28: drag from (298, 1016) to (346, 349)
Your task to perform on an android device: Empty the shopping cart on bestbuy. Add logitech g pro to the cart on bestbuy, then select checkout. Image 29: 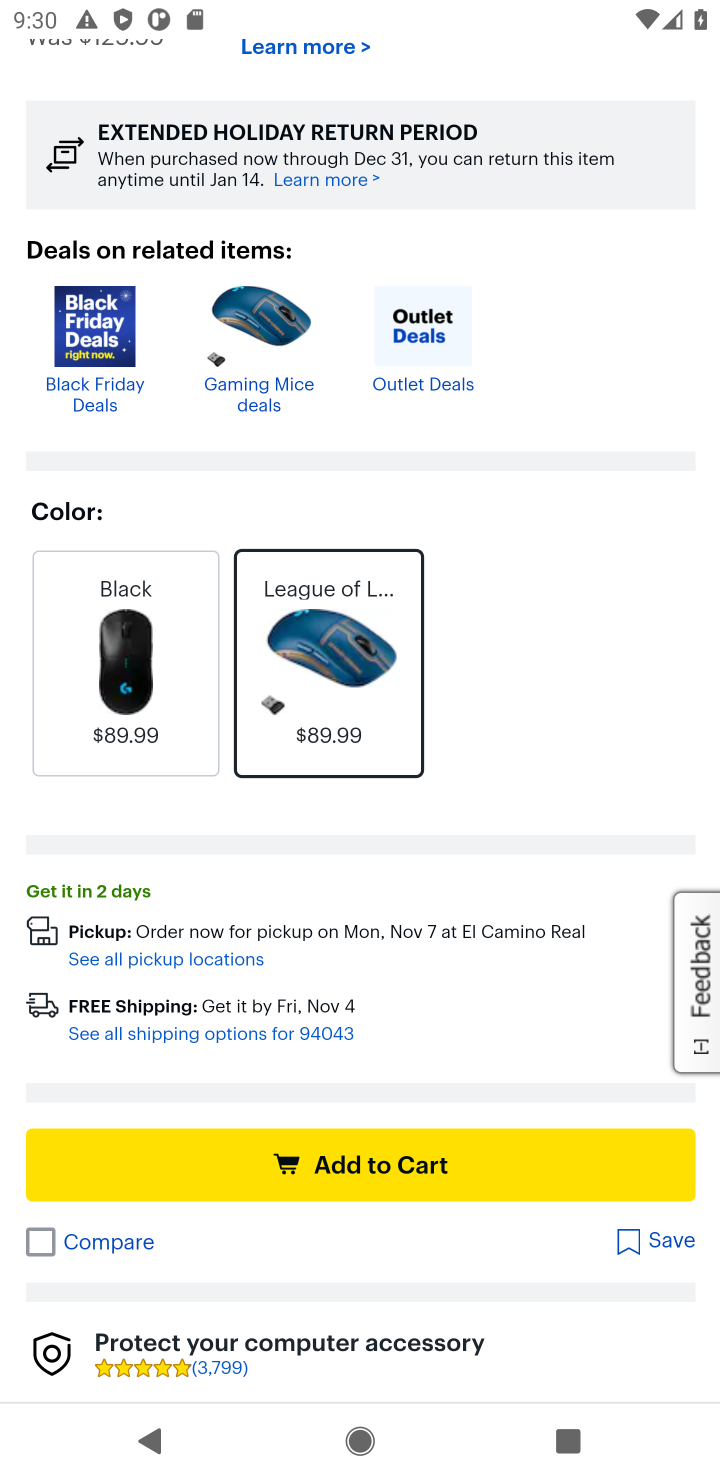
Step 29: click (477, 1178)
Your task to perform on an android device: Empty the shopping cart on bestbuy. Add logitech g pro to the cart on bestbuy, then select checkout. Image 30: 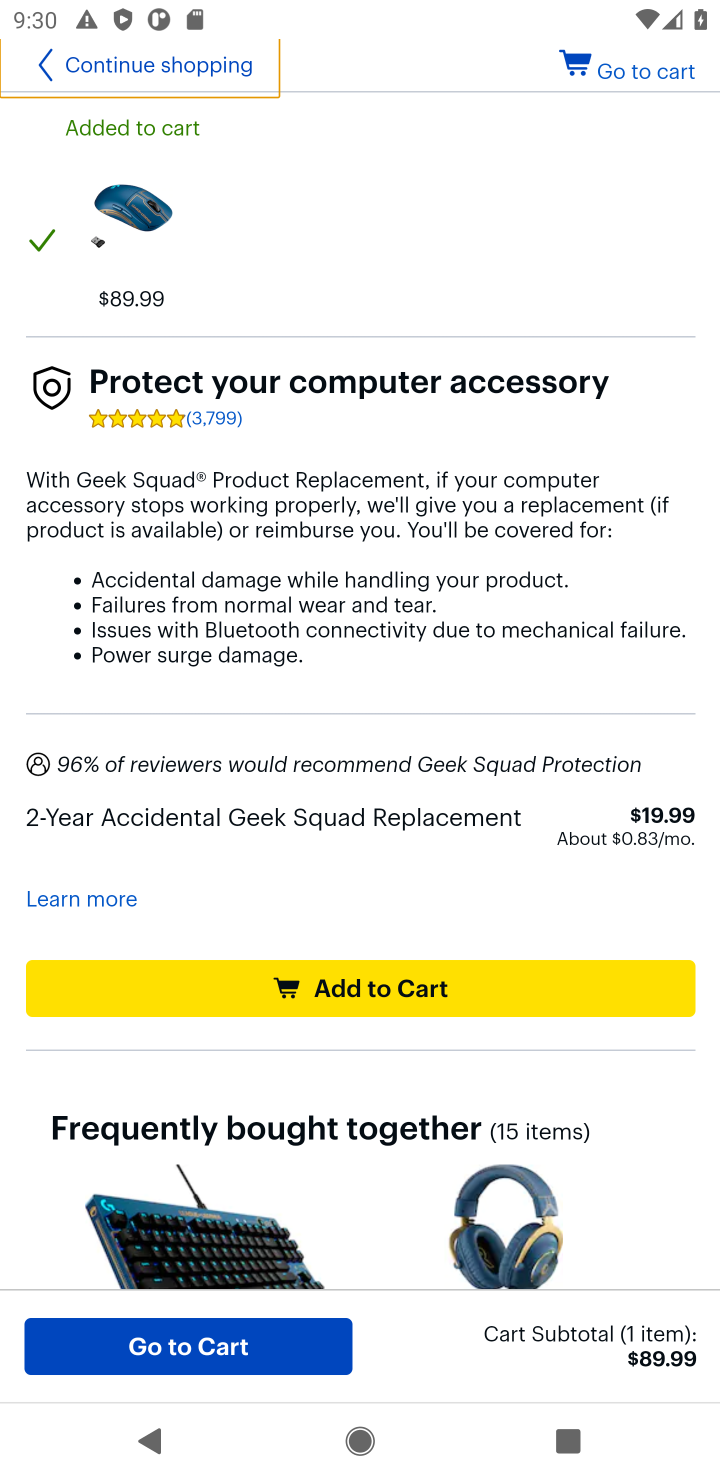
Step 30: click (296, 1338)
Your task to perform on an android device: Empty the shopping cart on bestbuy. Add logitech g pro to the cart on bestbuy, then select checkout. Image 31: 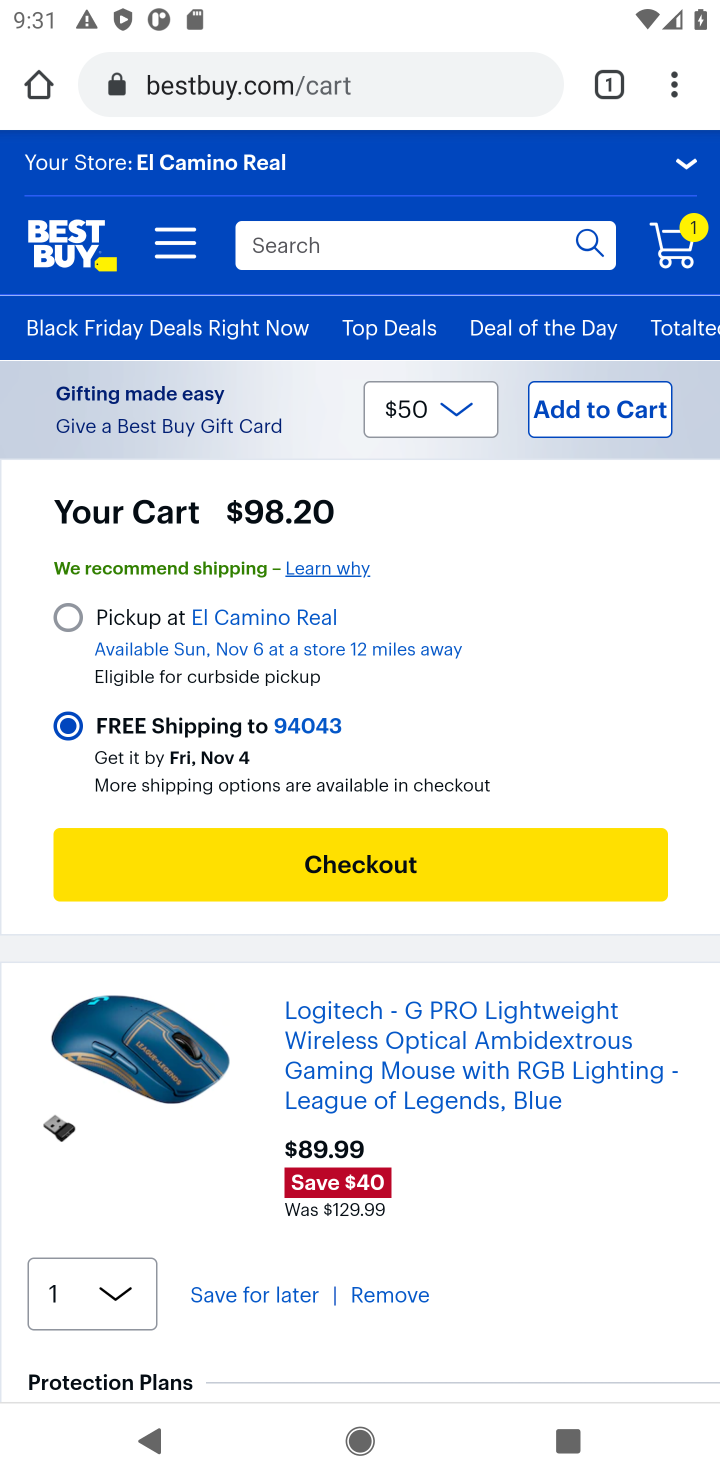
Step 31: click (383, 878)
Your task to perform on an android device: Empty the shopping cart on bestbuy. Add logitech g pro to the cart on bestbuy, then select checkout. Image 32: 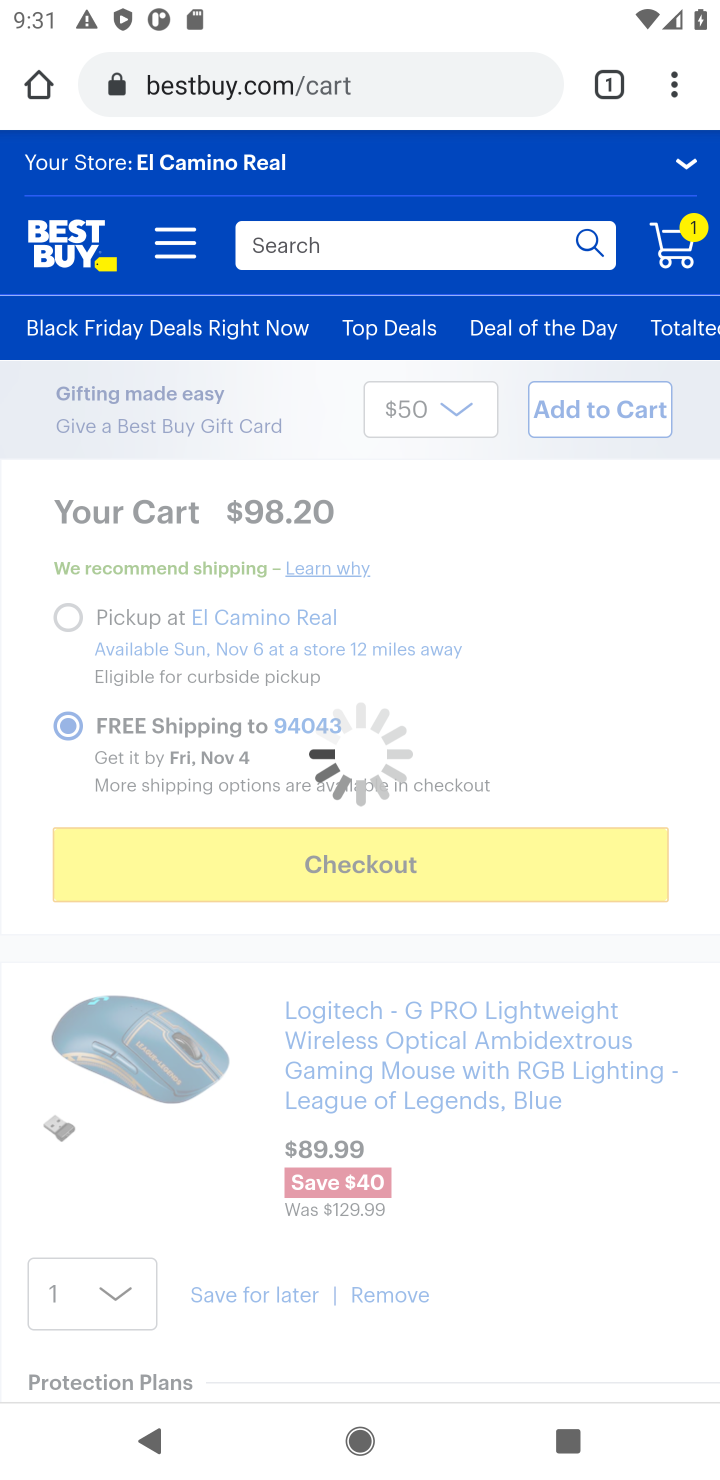
Step 32: task complete